Your task to perform on an android device: open app "Google Play services" (install if not already installed) Image 0: 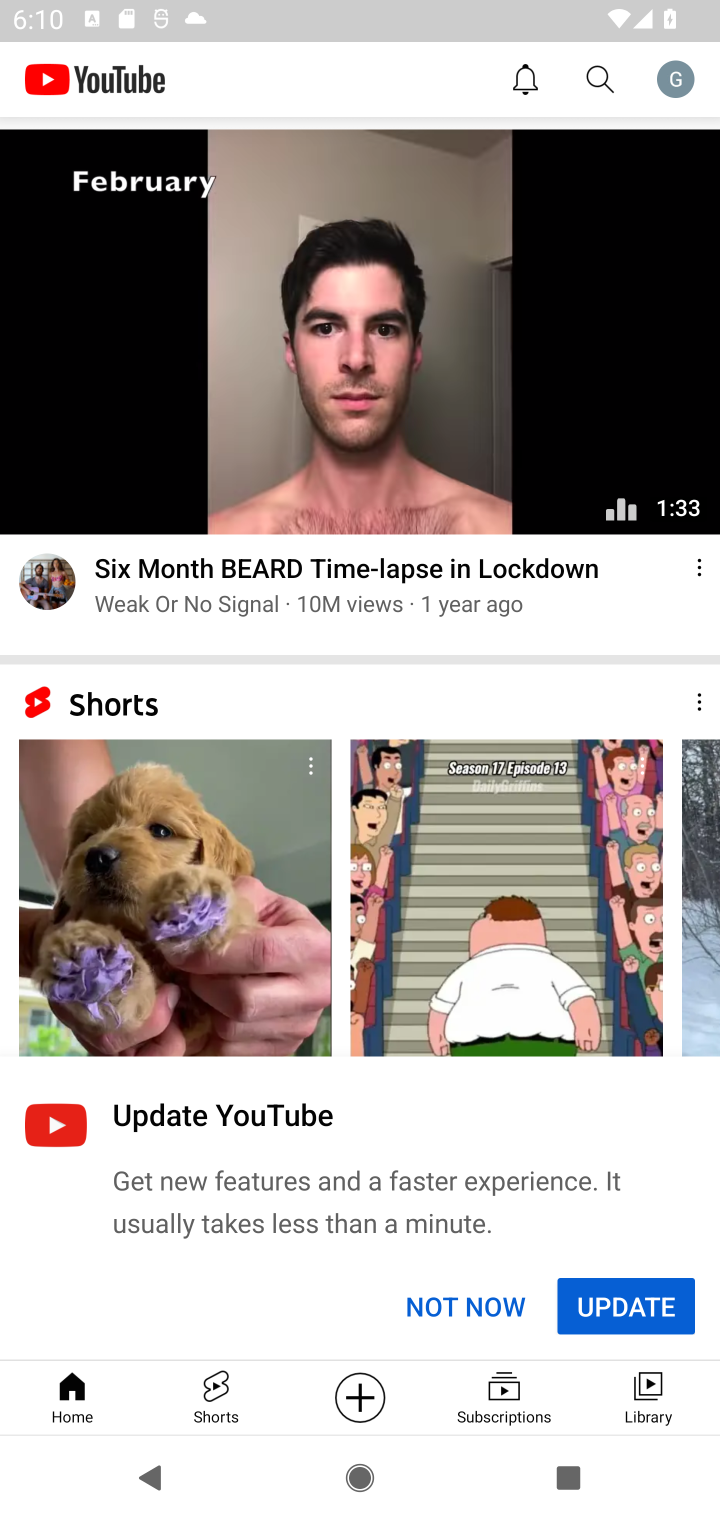
Step 0: press home button
Your task to perform on an android device: open app "Google Play services" (install if not already installed) Image 1: 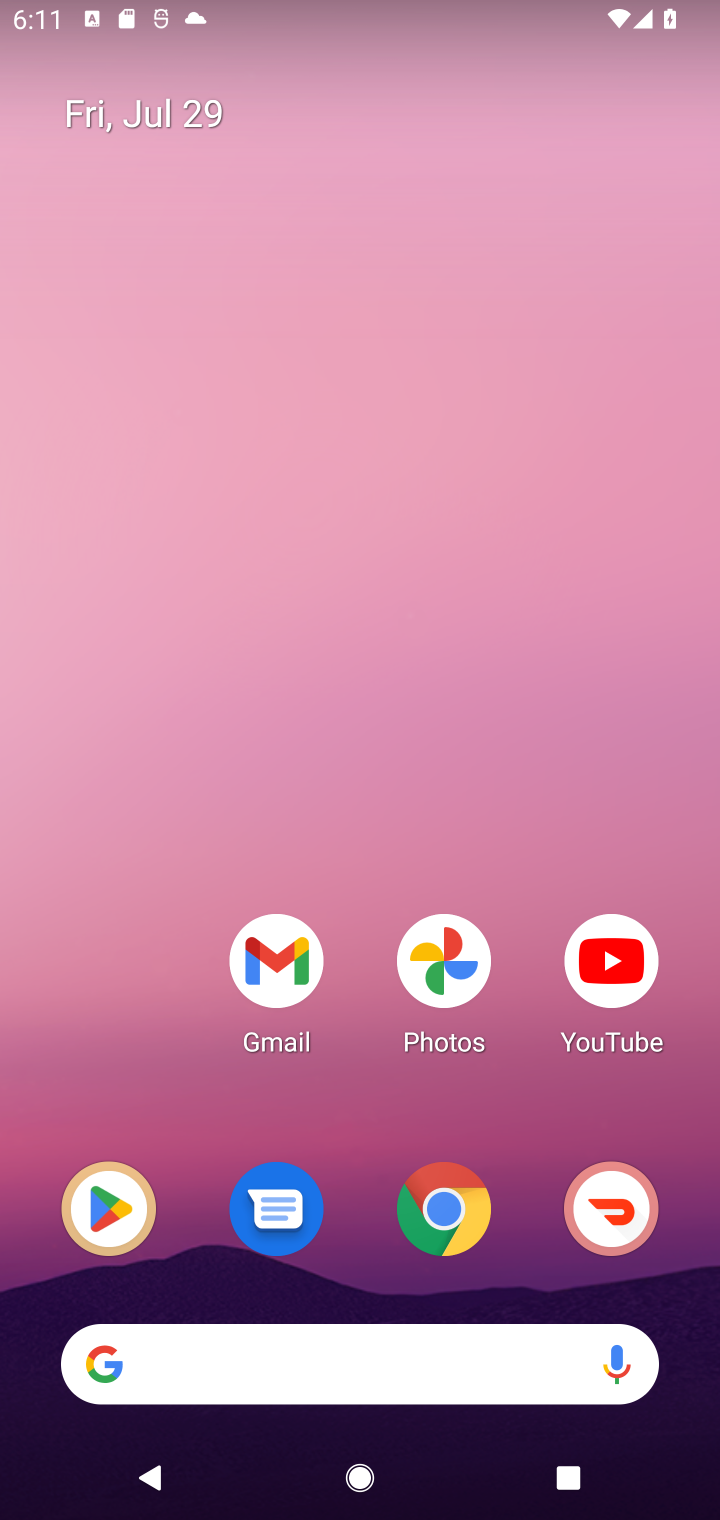
Step 1: click (108, 1221)
Your task to perform on an android device: open app "Google Play services" (install if not already installed) Image 2: 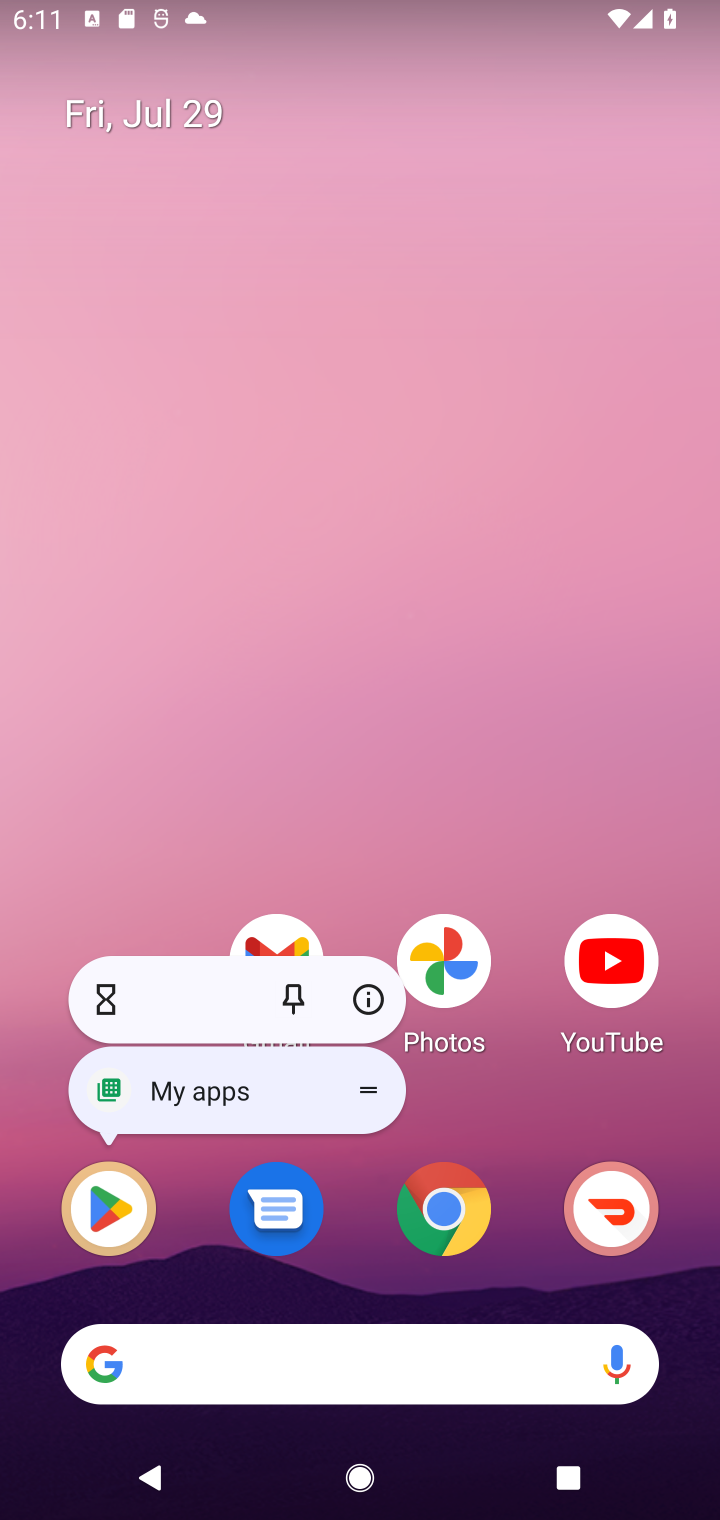
Step 2: click (108, 1221)
Your task to perform on an android device: open app "Google Play services" (install if not already installed) Image 3: 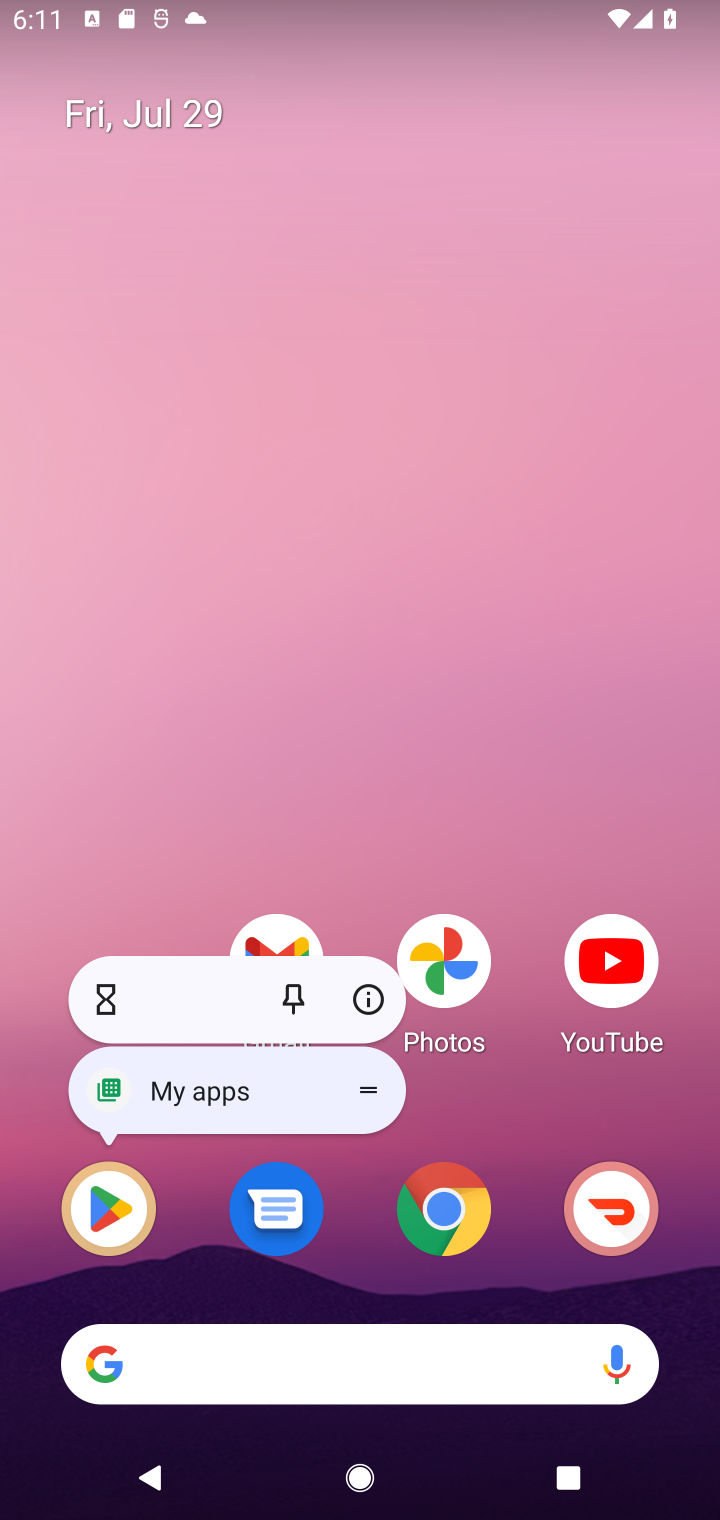
Step 3: click (108, 1221)
Your task to perform on an android device: open app "Google Play services" (install if not already installed) Image 4: 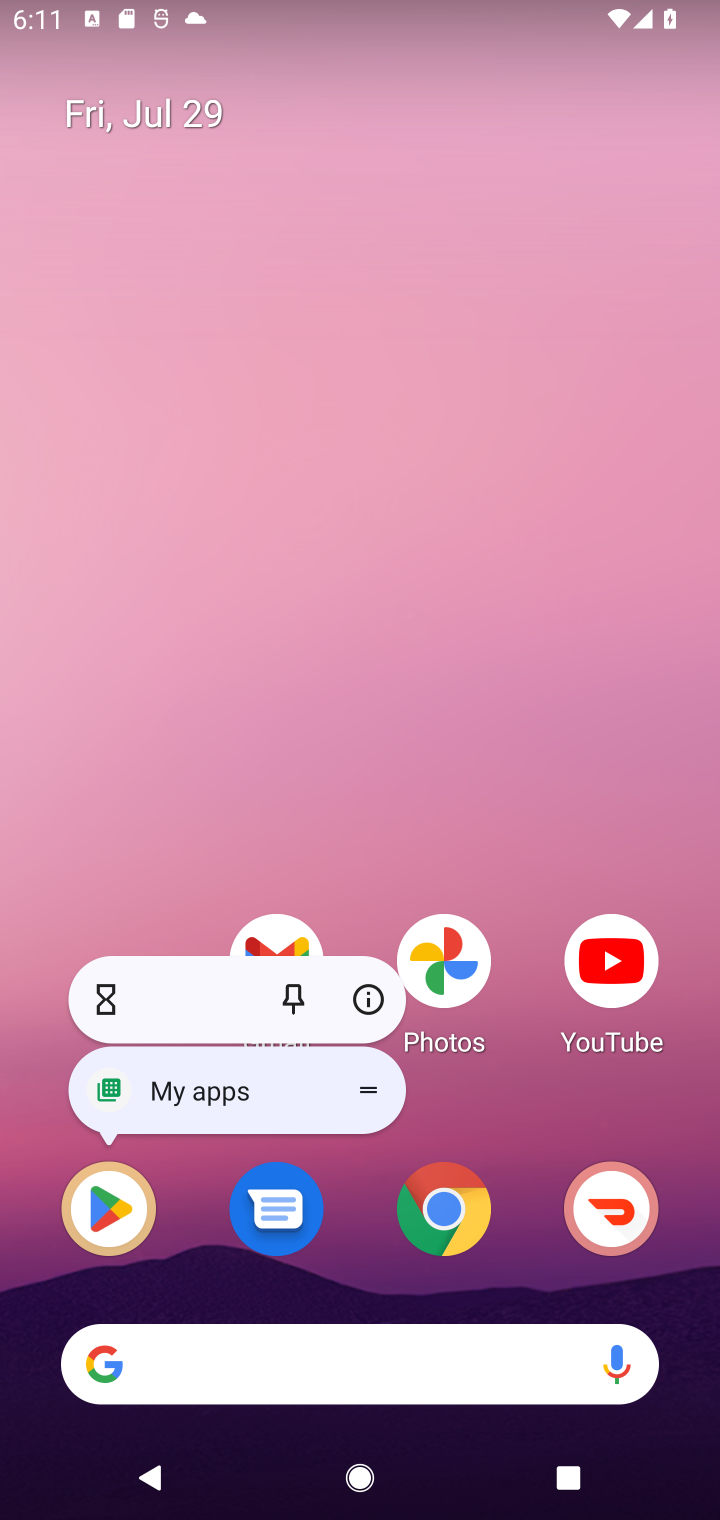
Step 4: click (108, 1221)
Your task to perform on an android device: open app "Google Play services" (install if not already installed) Image 5: 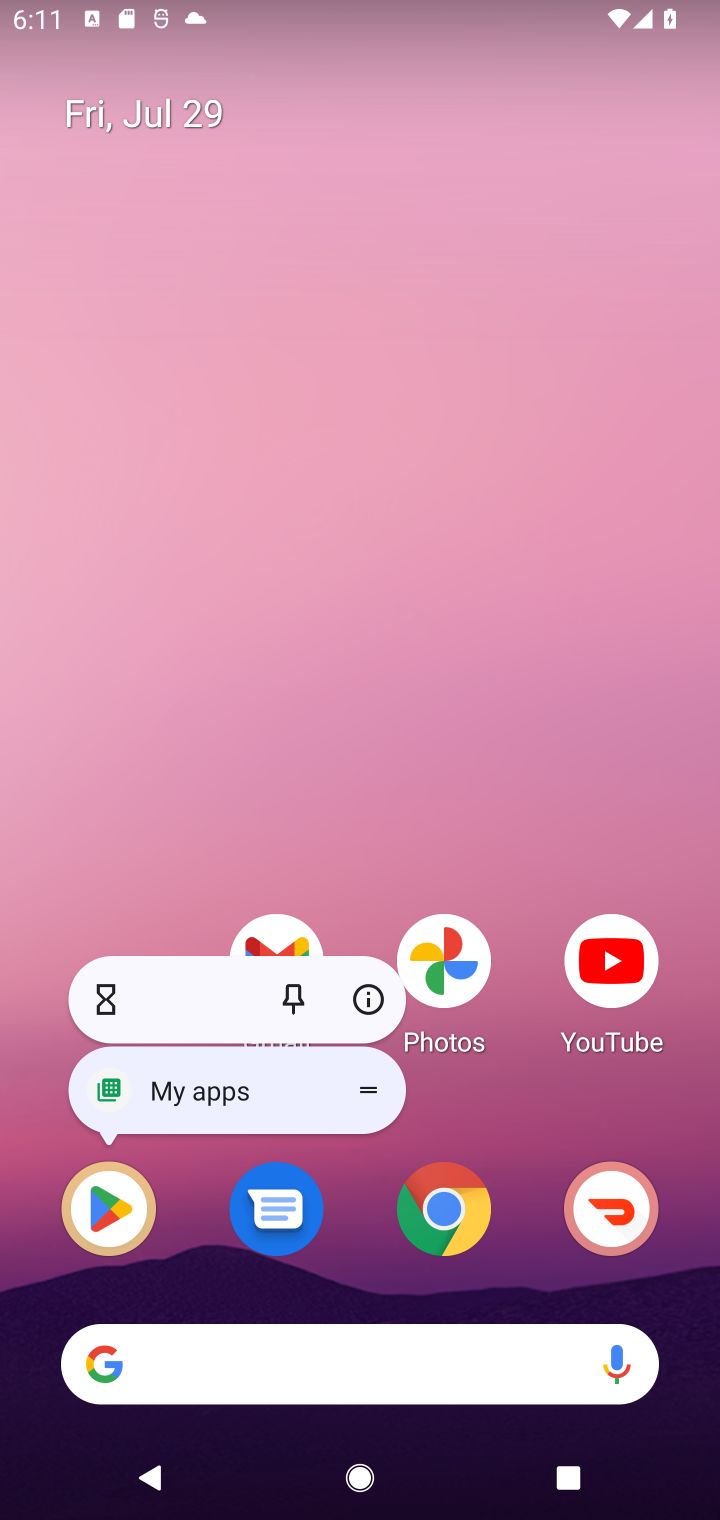
Step 5: click (108, 1221)
Your task to perform on an android device: open app "Google Play services" (install if not already installed) Image 6: 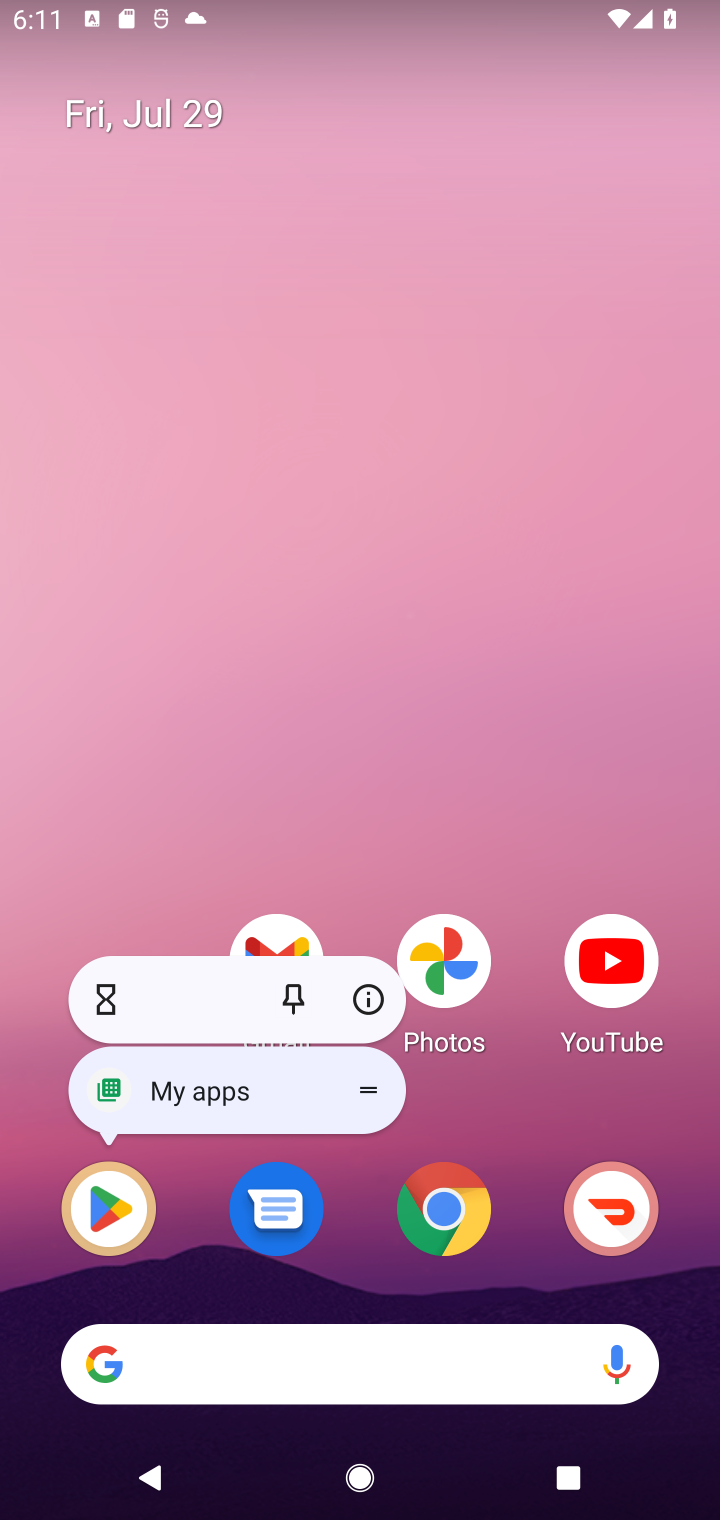
Step 6: click (101, 1198)
Your task to perform on an android device: open app "Google Play services" (install if not already installed) Image 7: 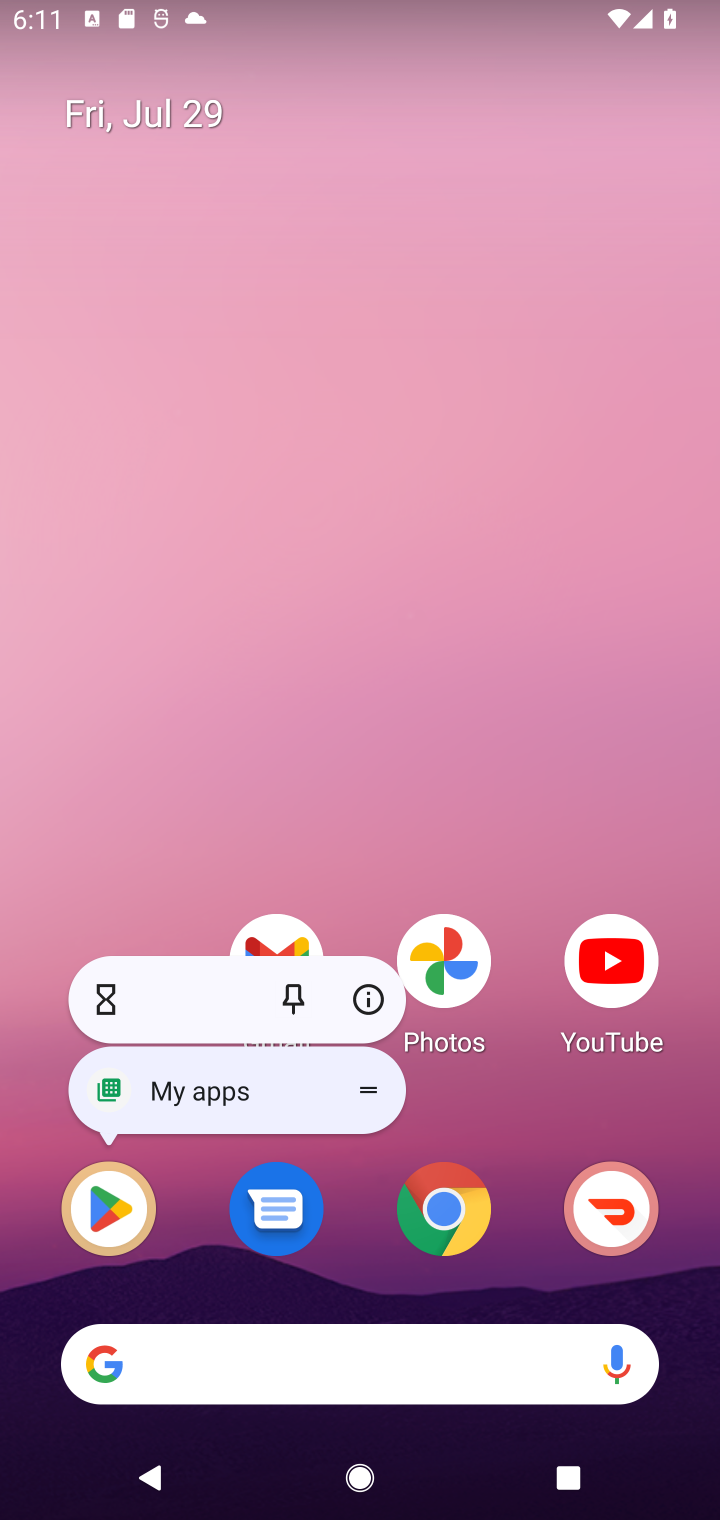
Step 7: click (101, 1198)
Your task to perform on an android device: open app "Google Play services" (install if not already installed) Image 8: 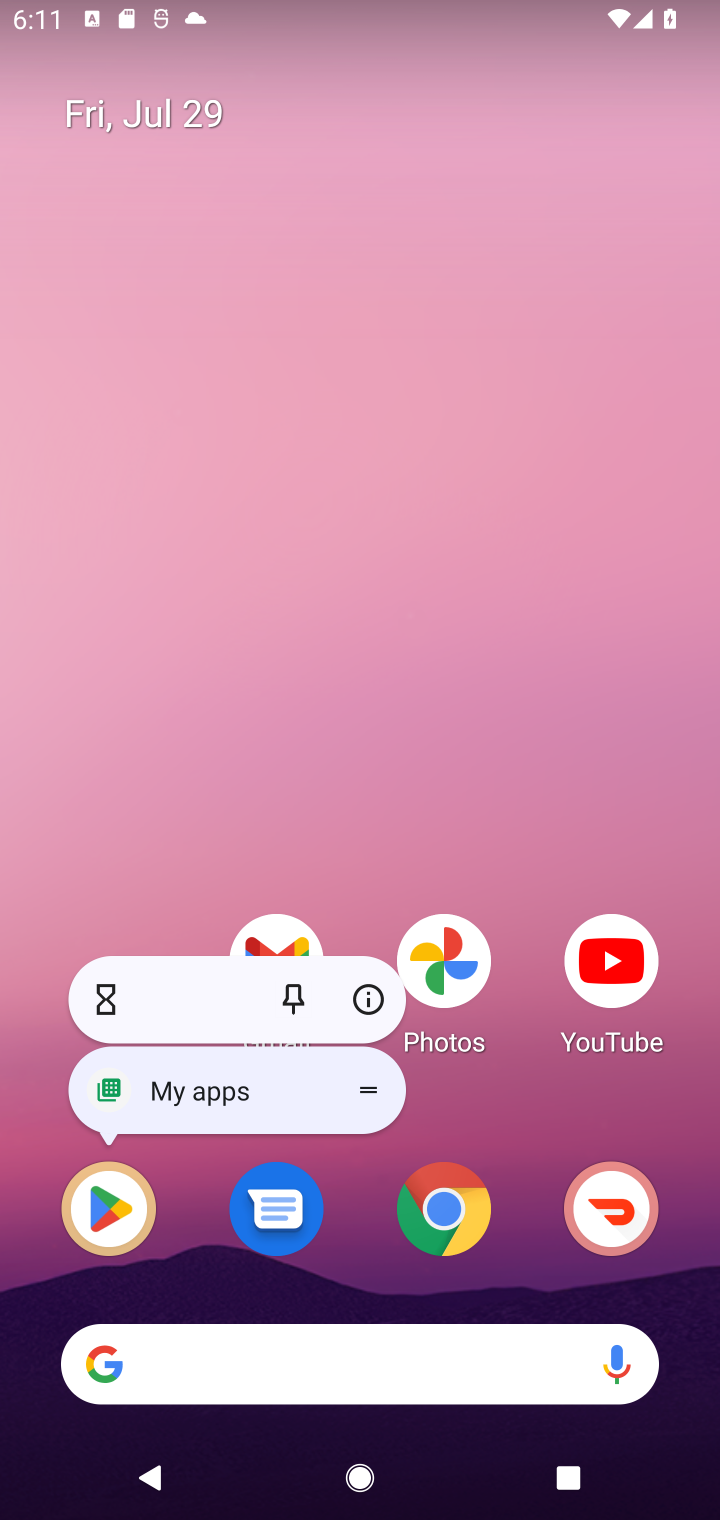
Step 8: click (101, 1198)
Your task to perform on an android device: open app "Google Play services" (install if not already installed) Image 9: 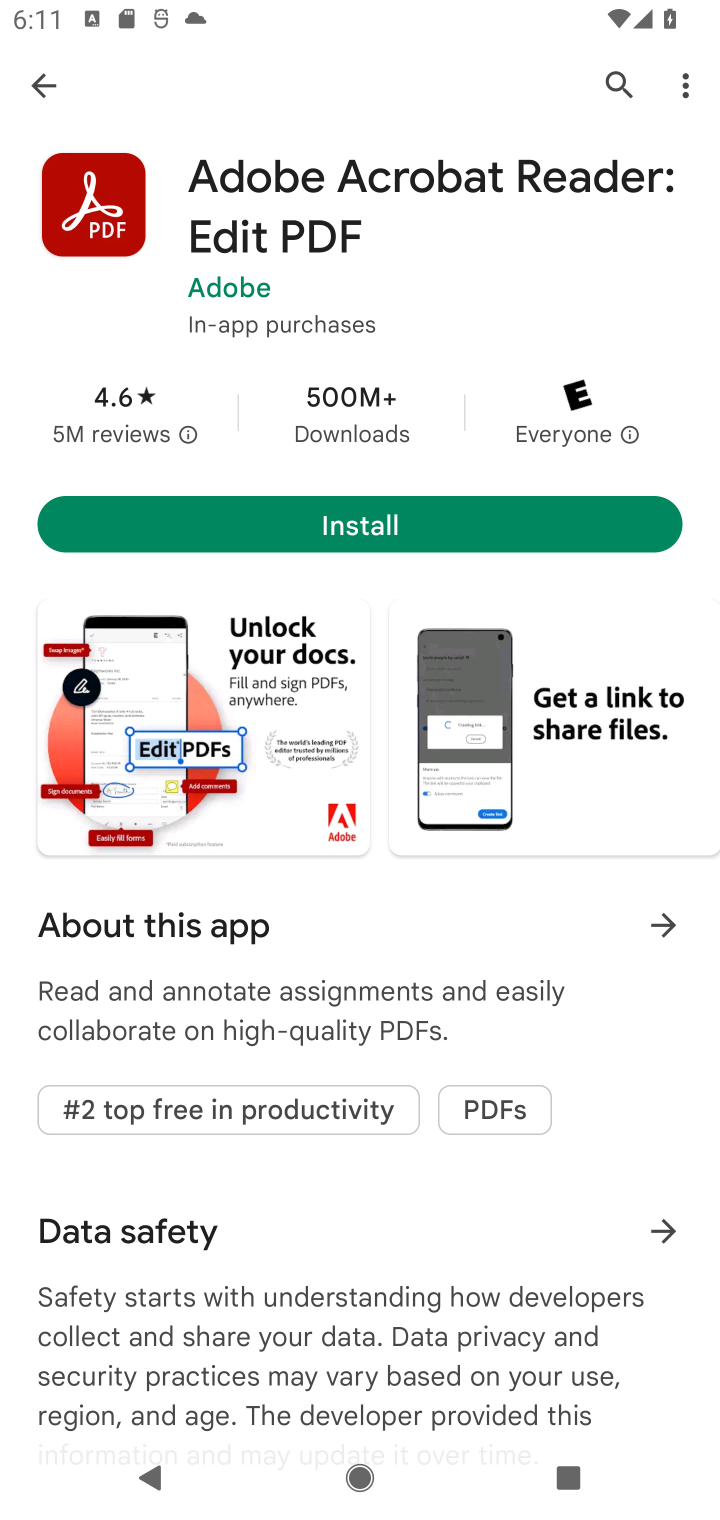
Step 9: click (614, 88)
Your task to perform on an android device: open app "Google Play services" (install if not already installed) Image 10: 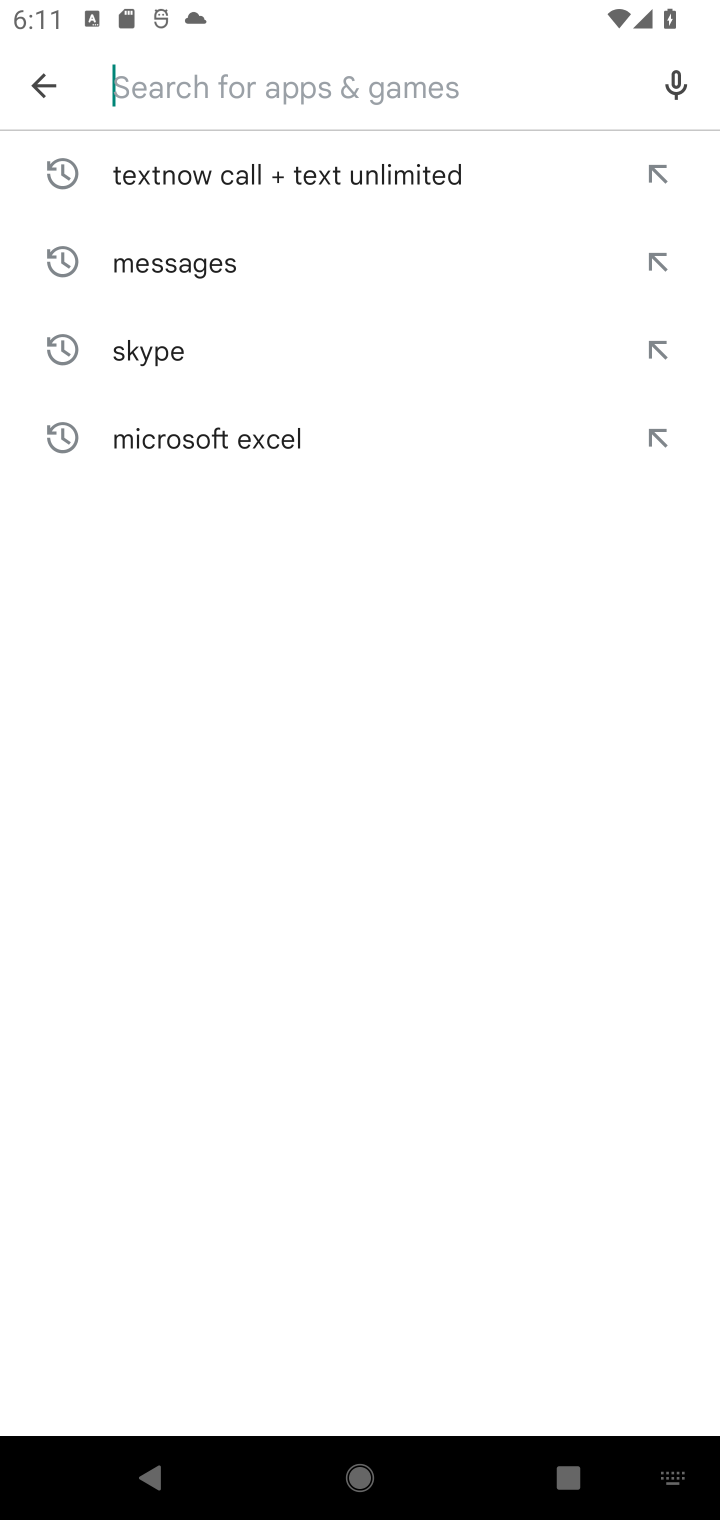
Step 10: type "Google Play services"
Your task to perform on an android device: open app "Google Play services" (install if not already installed) Image 11: 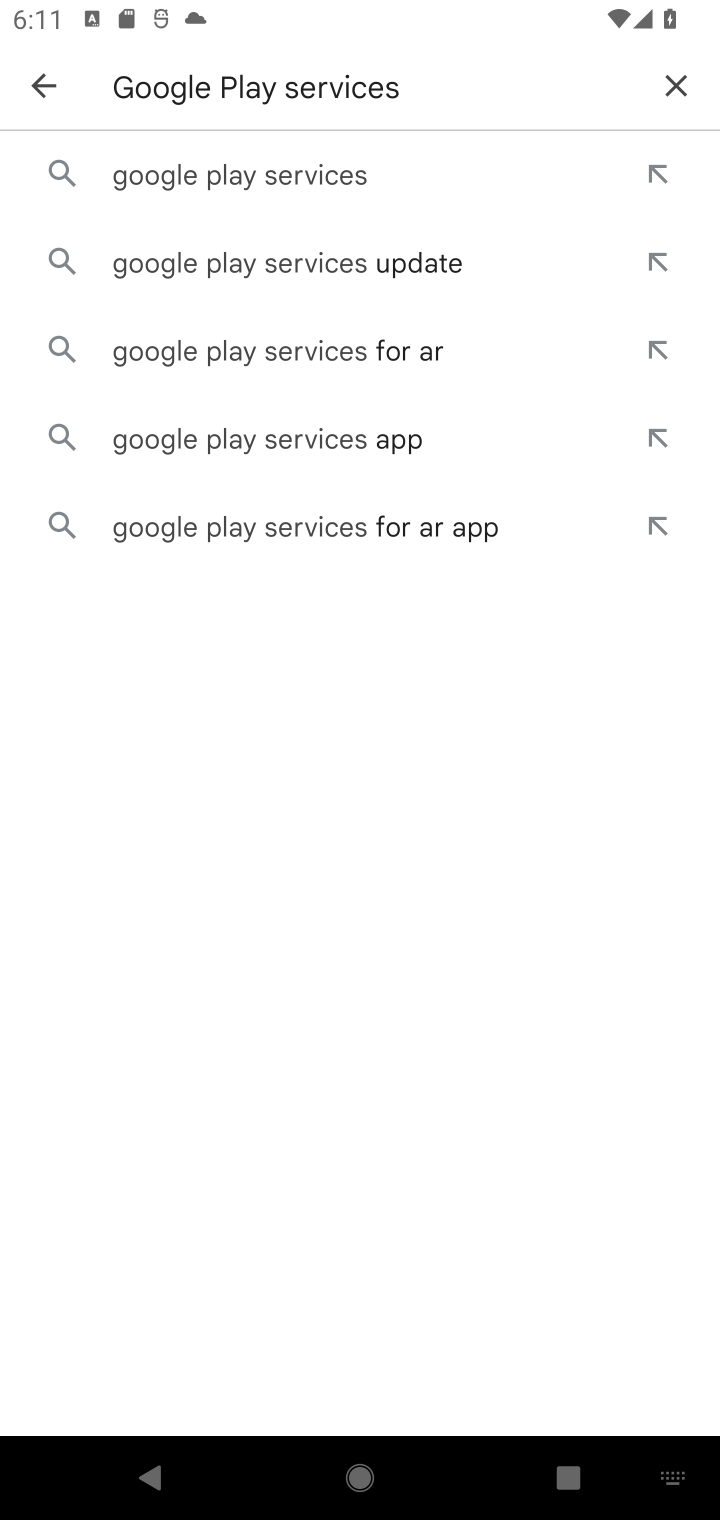
Step 11: click (224, 181)
Your task to perform on an android device: open app "Google Play services" (install if not already installed) Image 12: 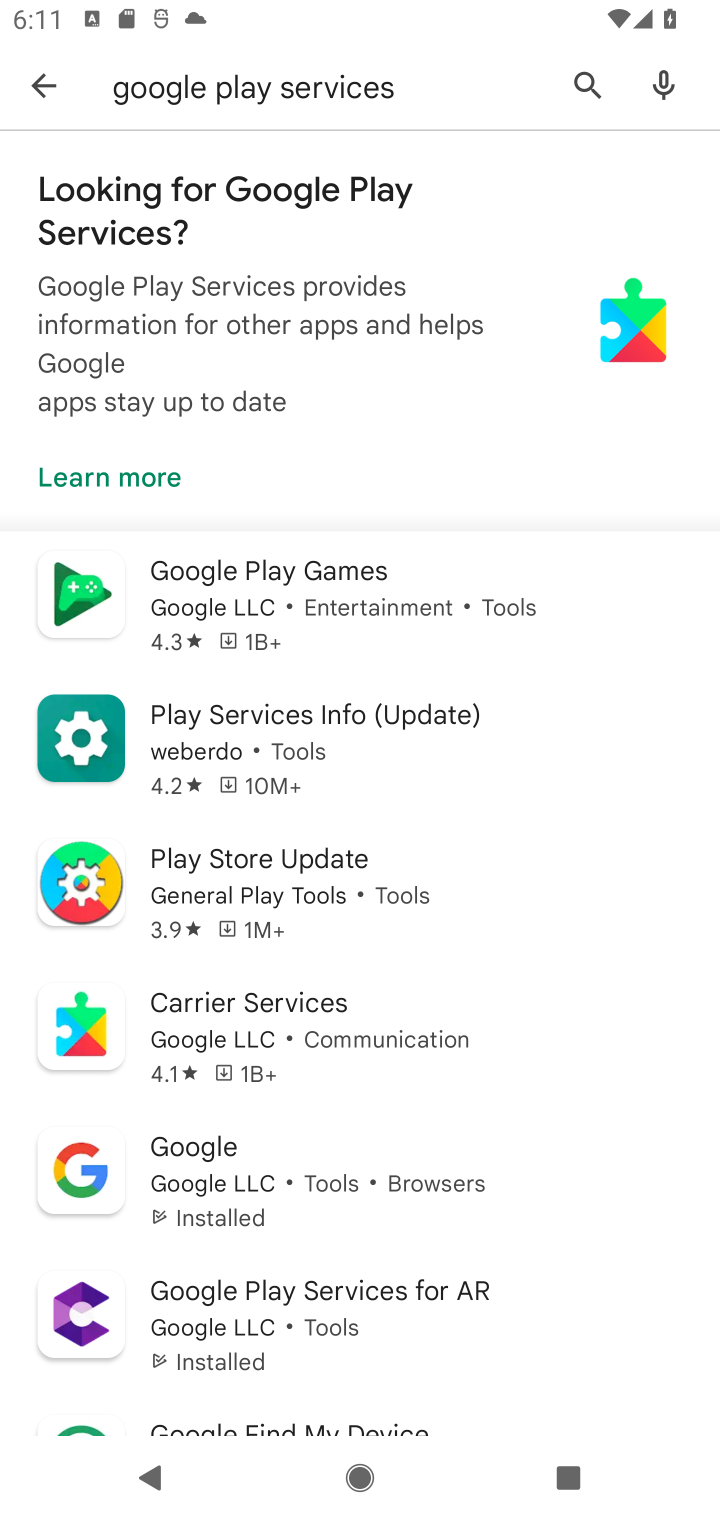
Step 12: click (202, 1298)
Your task to perform on an android device: open app "Google Play services" (install if not already installed) Image 13: 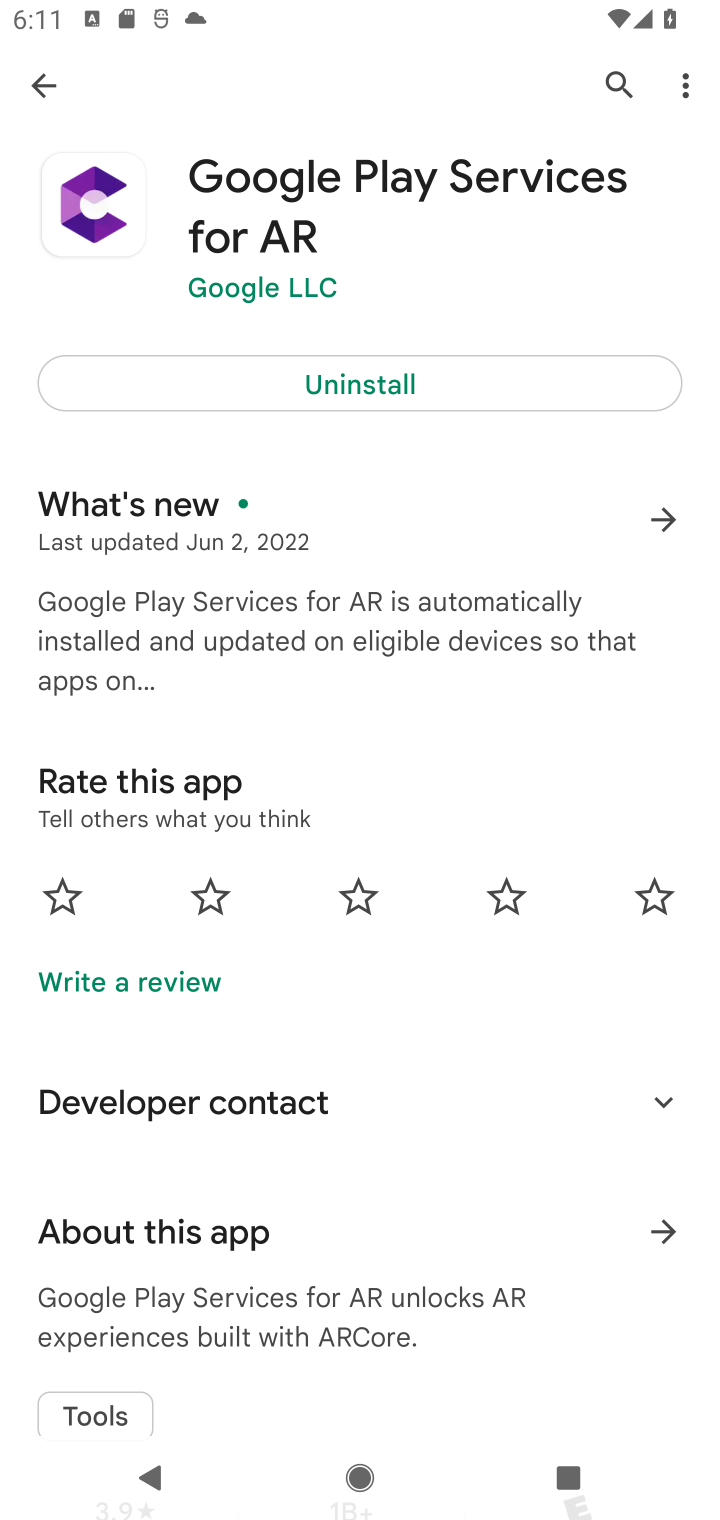
Step 13: click (100, 200)
Your task to perform on an android device: open app "Google Play services" (install if not already installed) Image 14: 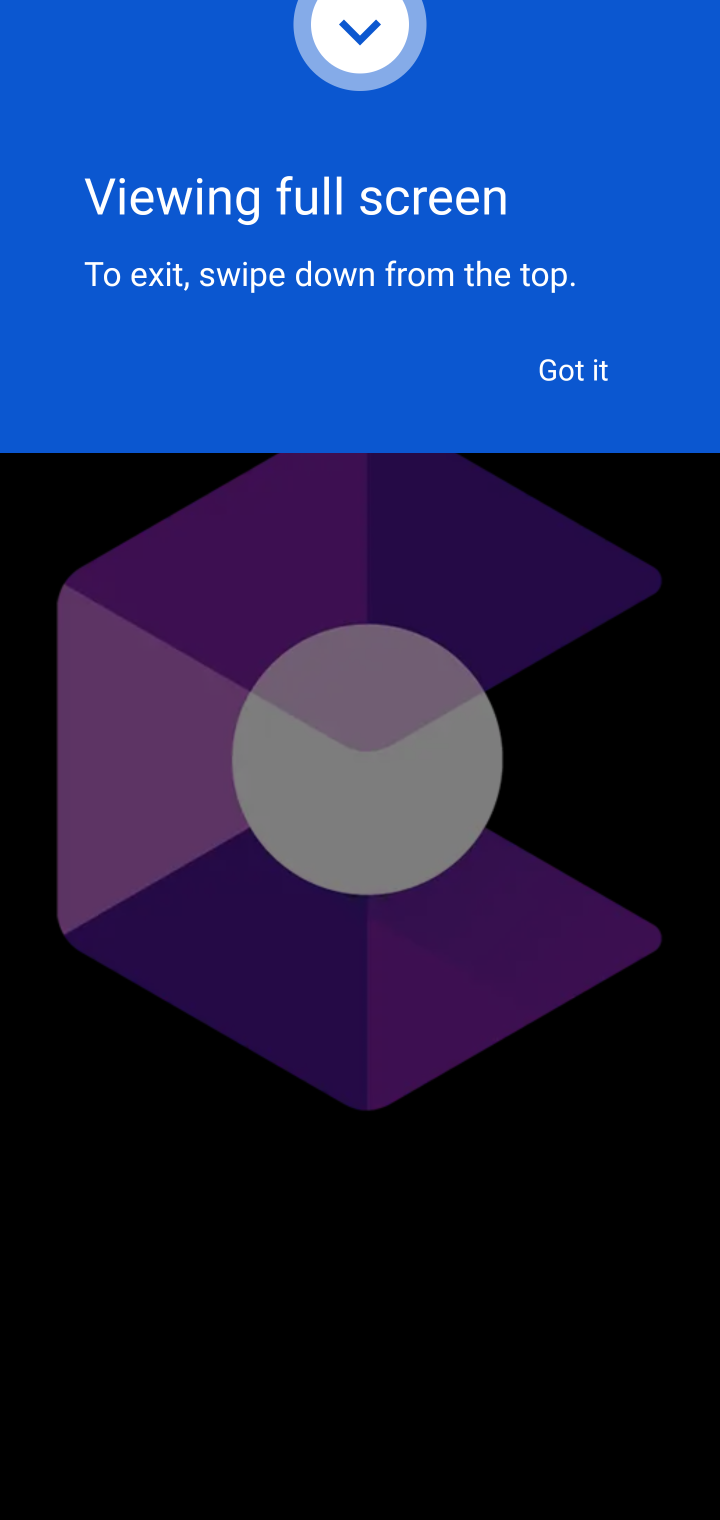
Step 14: click (553, 374)
Your task to perform on an android device: open app "Google Play services" (install if not already installed) Image 15: 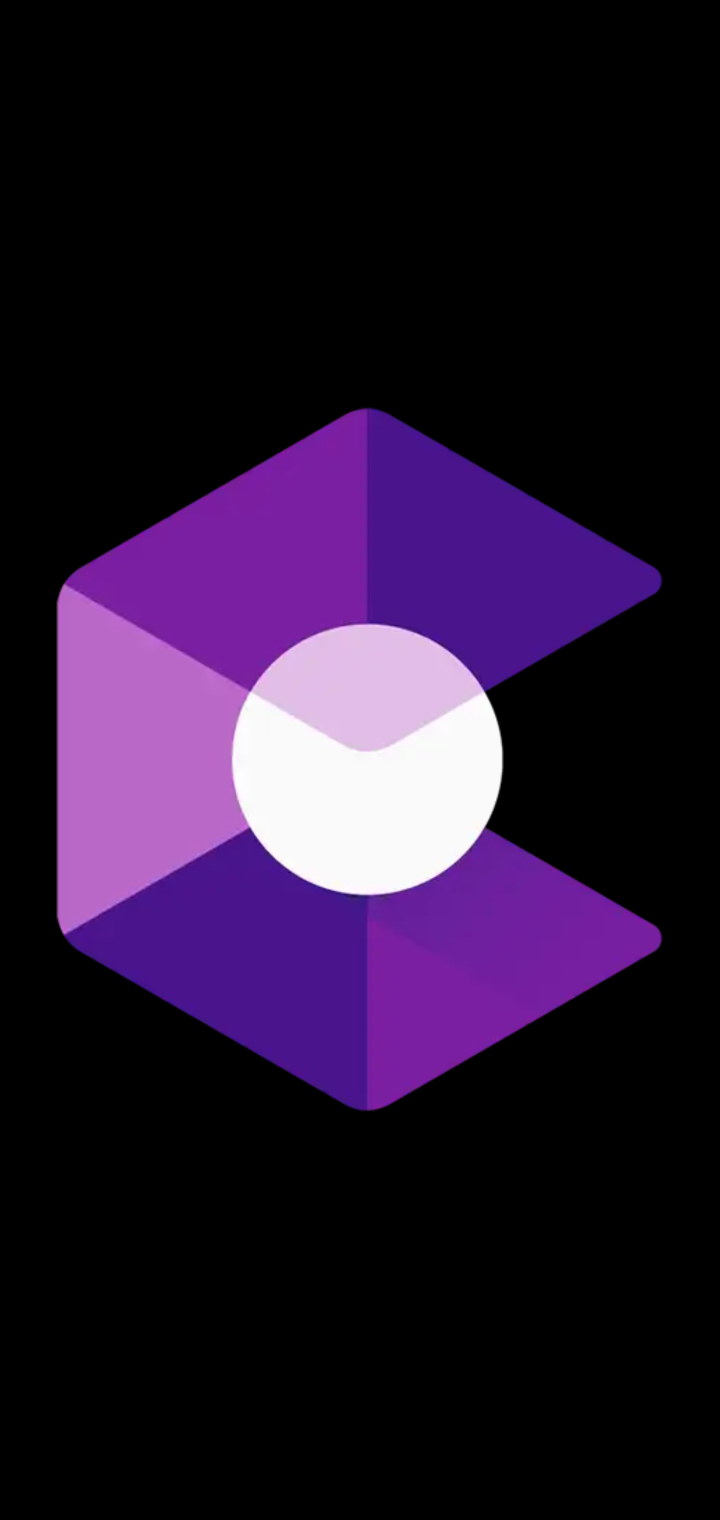
Step 15: click (41, 128)
Your task to perform on an android device: open app "Google Play services" (install if not already installed) Image 16: 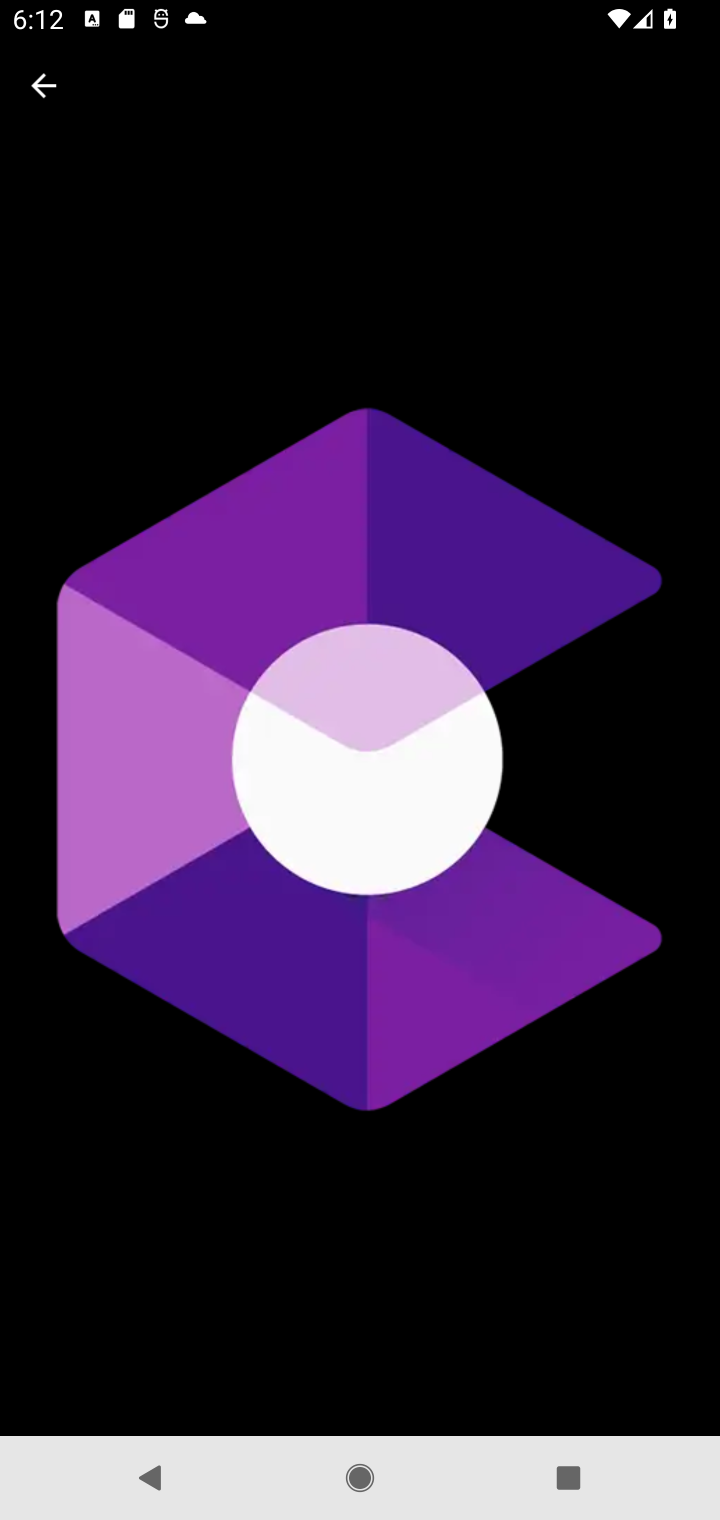
Step 16: click (41, 96)
Your task to perform on an android device: open app "Google Play services" (install if not already installed) Image 17: 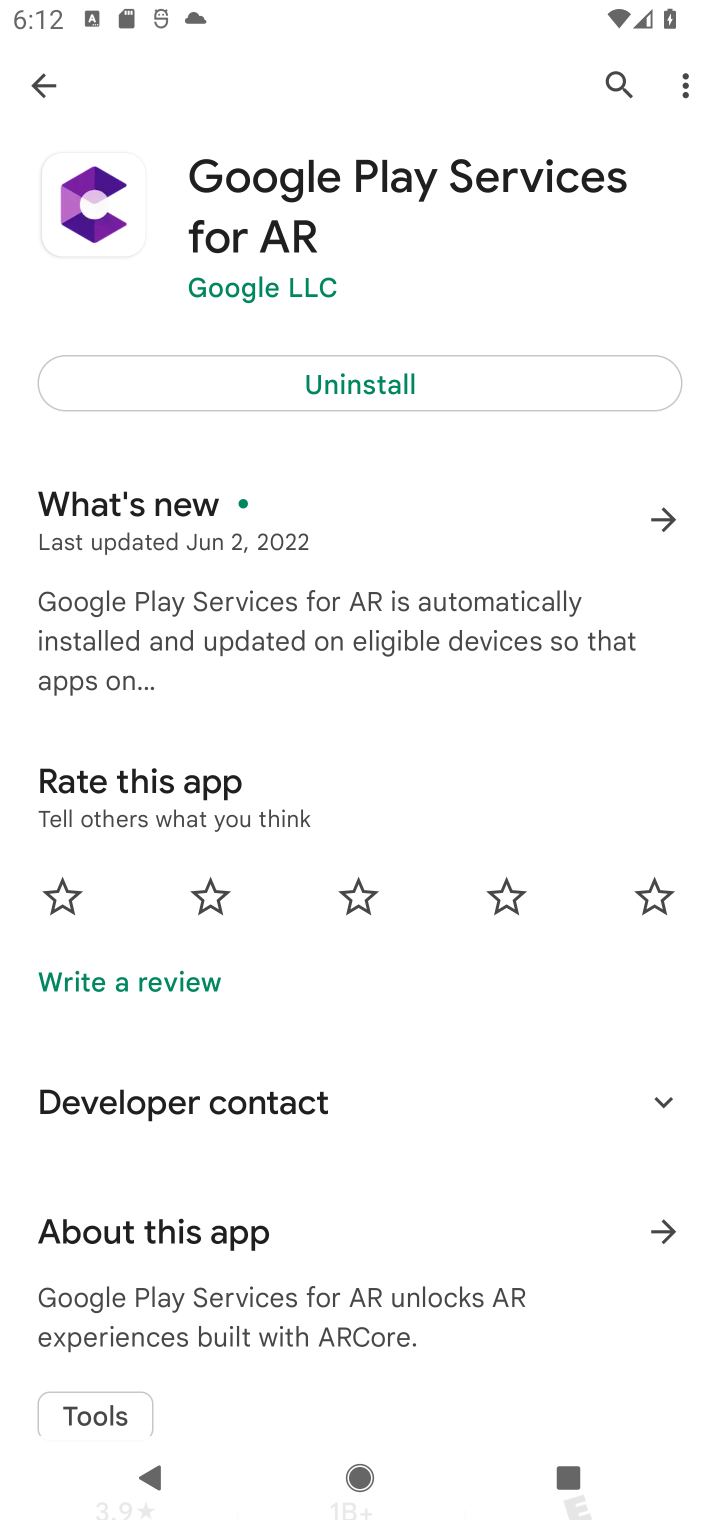
Step 17: click (273, 190)
Your task to perform on an android device: open app "Google Play services" (install if not already installed) Image 18: 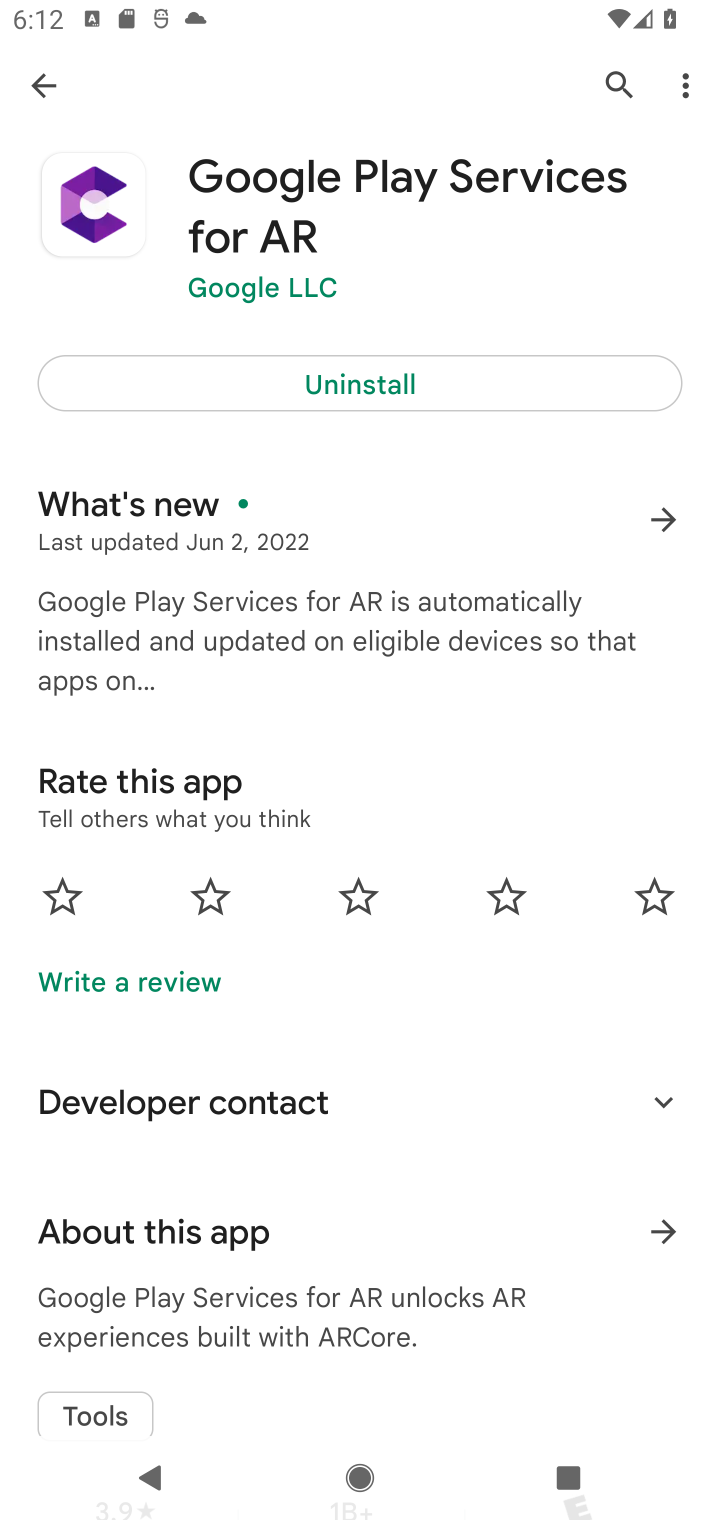
Step 18: click (248, 235)
Your task to perform on an android device: open app "Google Play services" (install if not already installed) Image 19: 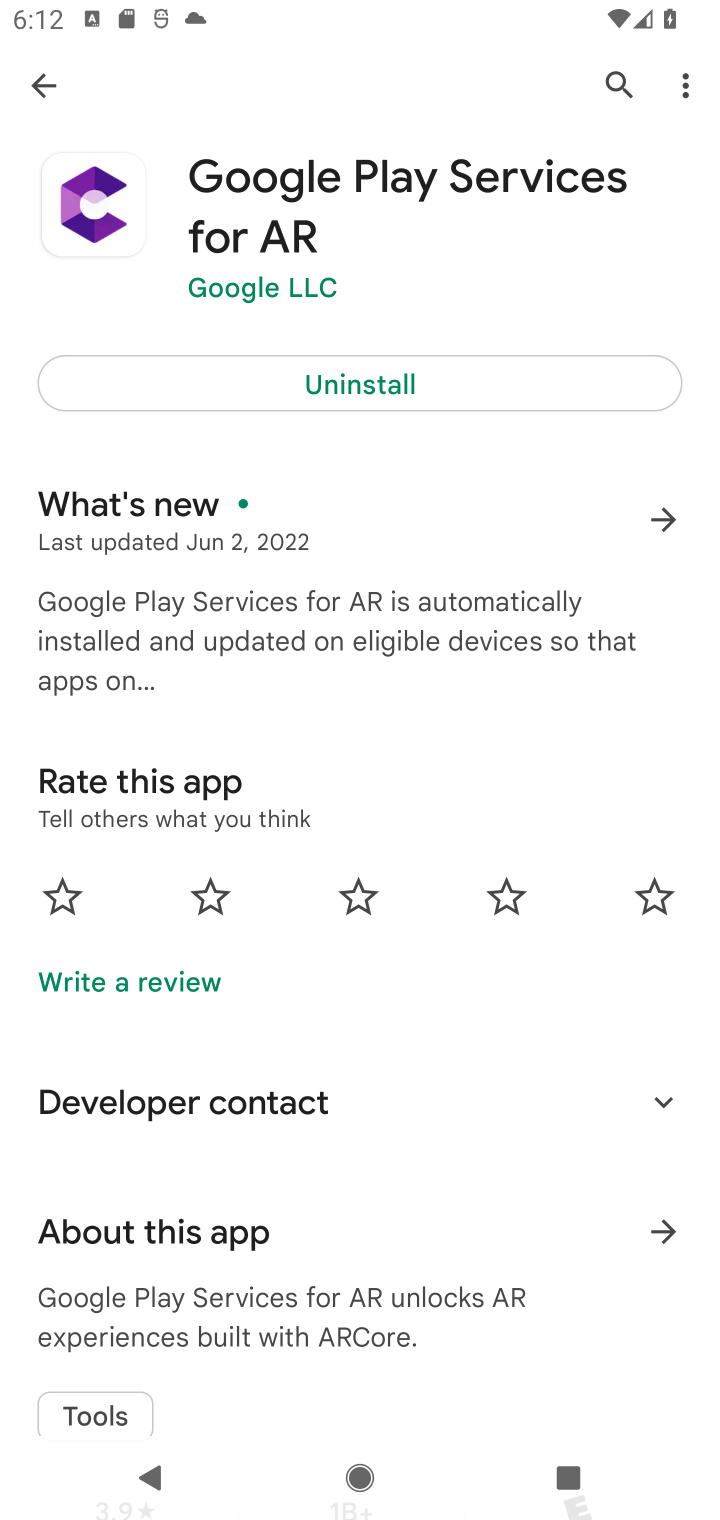
Step 19: press home button
Your task to perform on an android device: open app "Google Play services" (install if not already installed) Image 20: 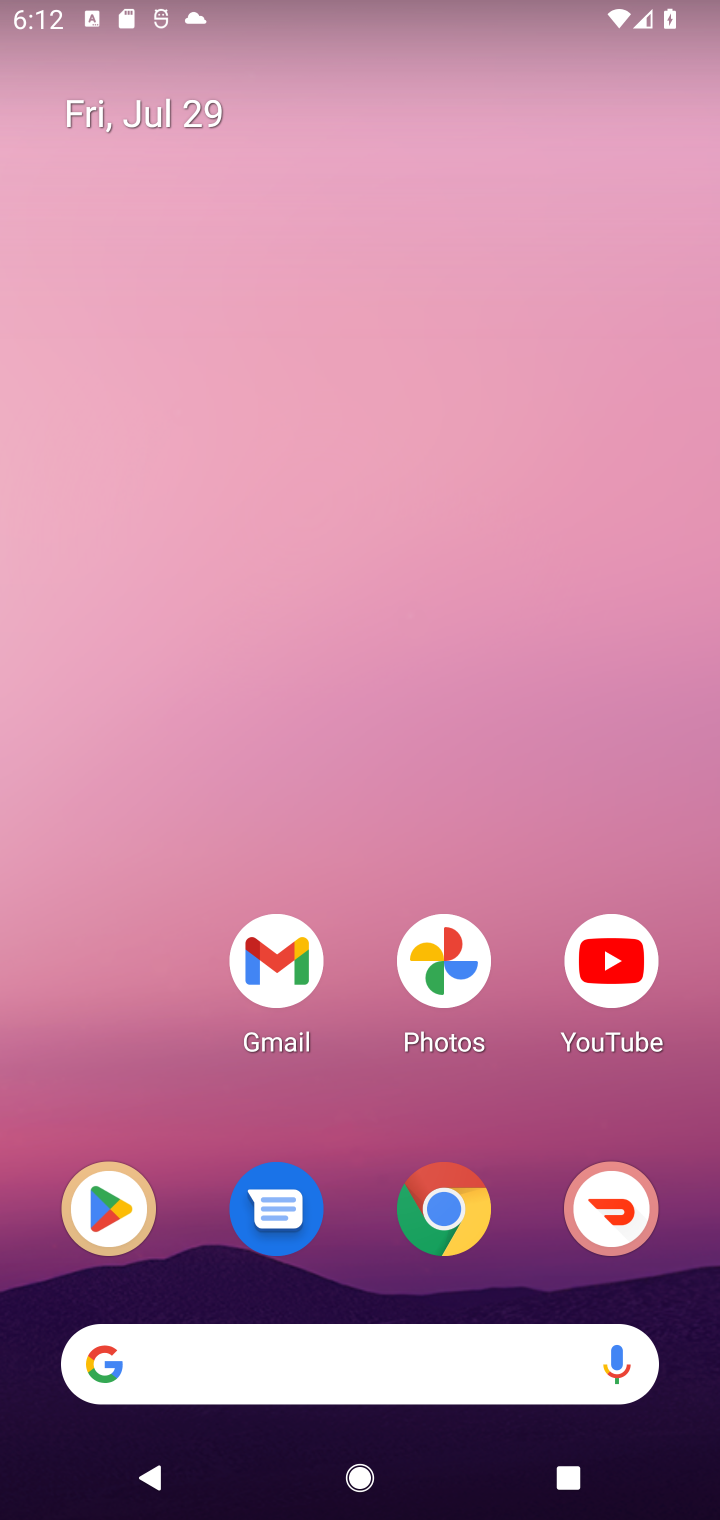
Step 20: drag from (485, 736) to (0, 767)
Your task to perform on an android device: open app "Google Play services" (install if not already installed) Image 21: 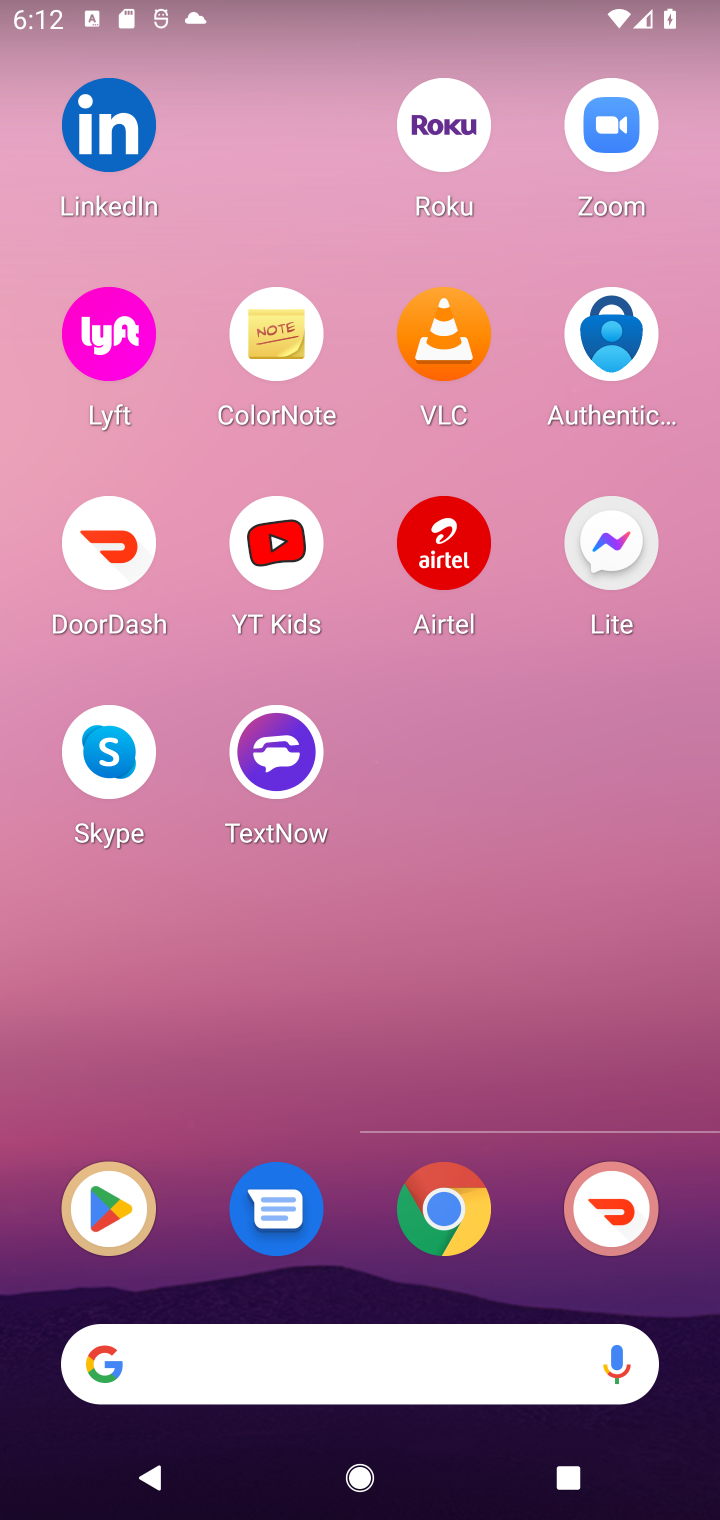
Step 21: click (630, 842)
Your task to perform on an android device: open app "Google Play services" (install if not already installed) Image 22: 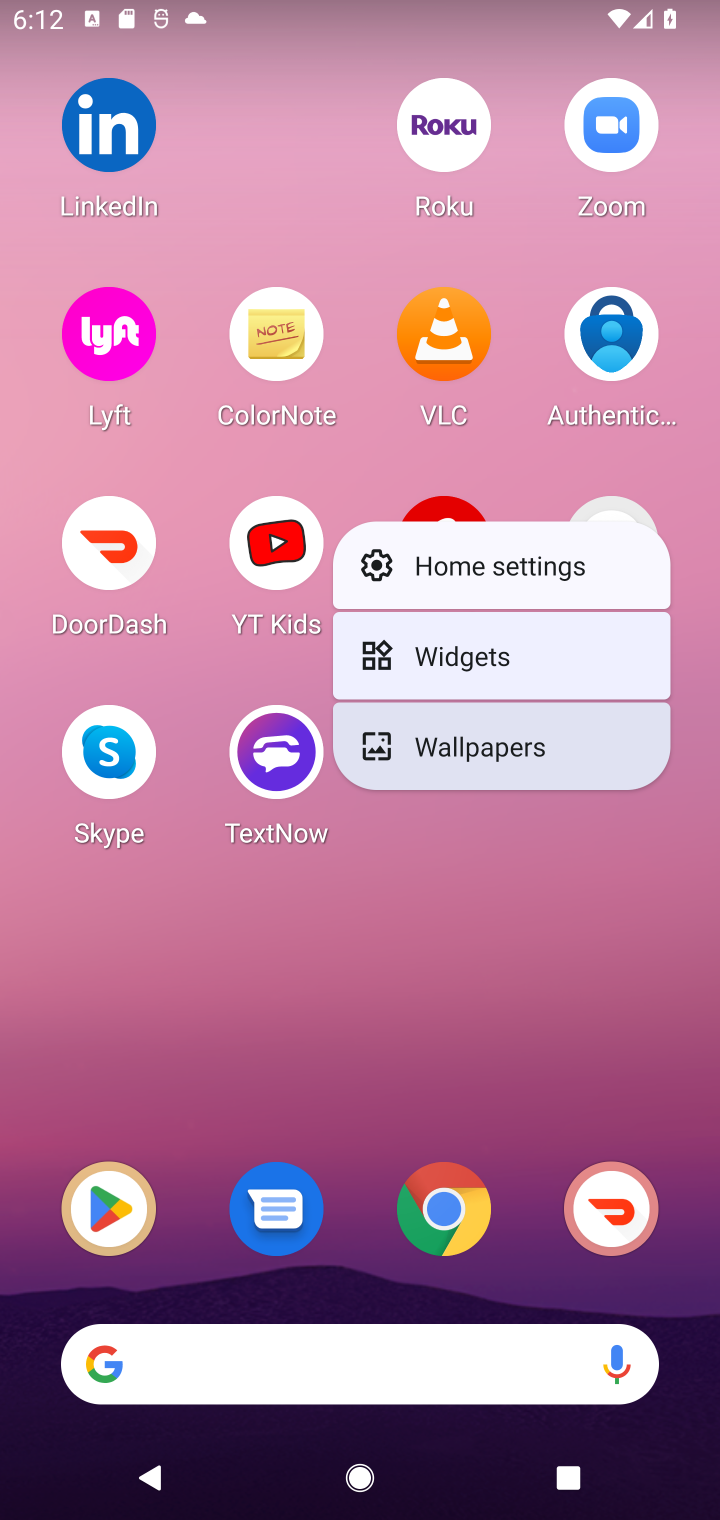
Step 22: drag from (458, 965) to (394, 118)
Your task to perform on an android device: open app "Google Play services" (install if not already installed) Image 23: 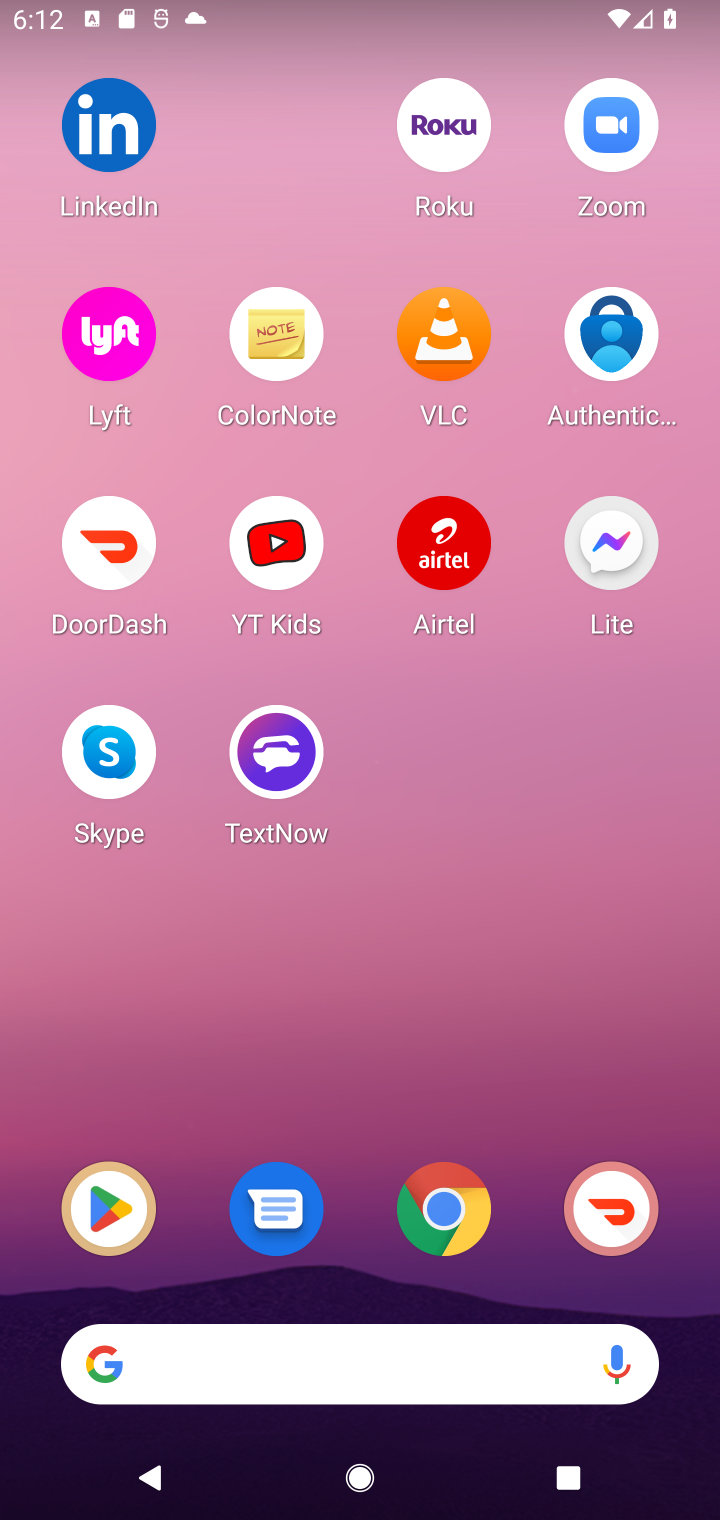
Step 23: drag from (448, 1048) to (410, 133)
Your task to perform on an android device: open app "Google Play services" (install if not already installed) Image 24: 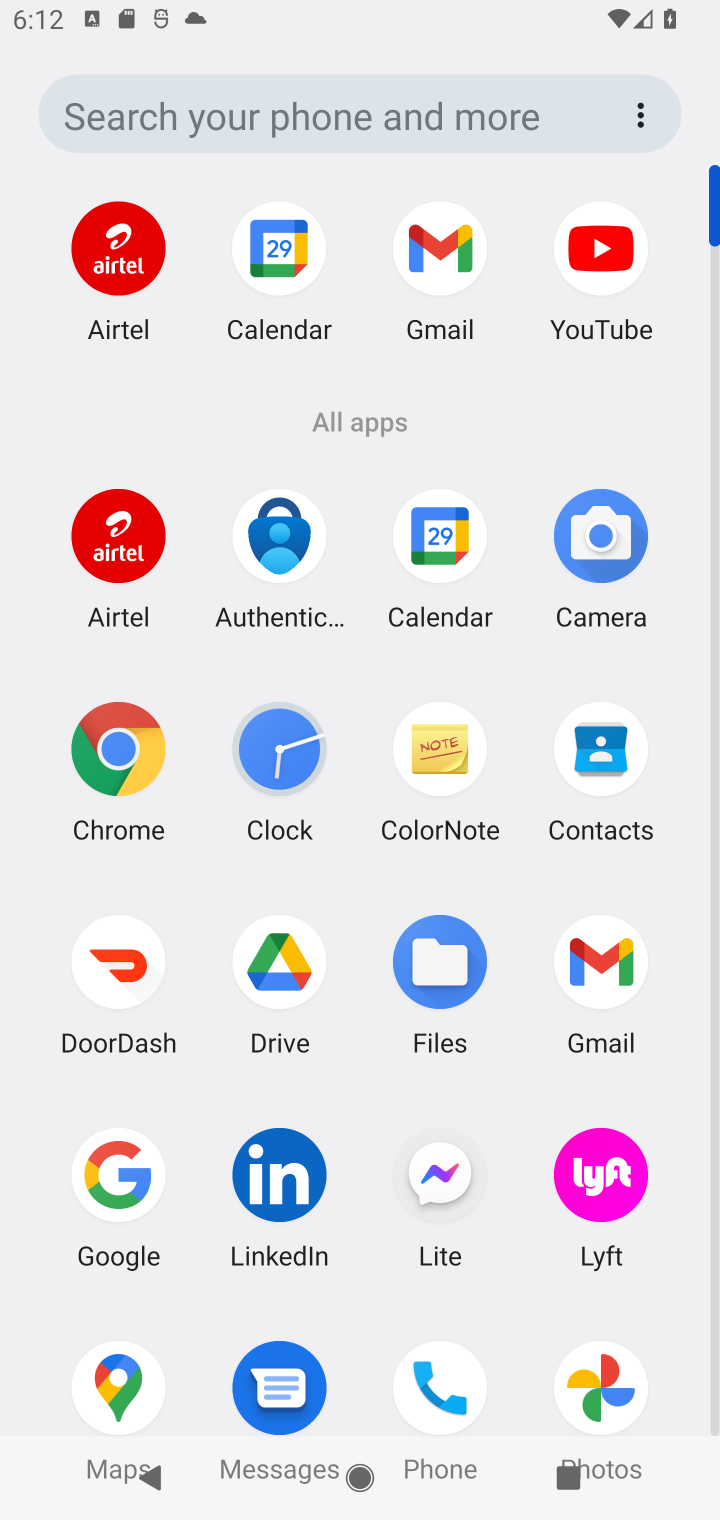
Step 24: drag from (700, 1011) to (708, 881)
Your task to perform on an android device: open app "Google Play services" (install if not already installed) Image 25: 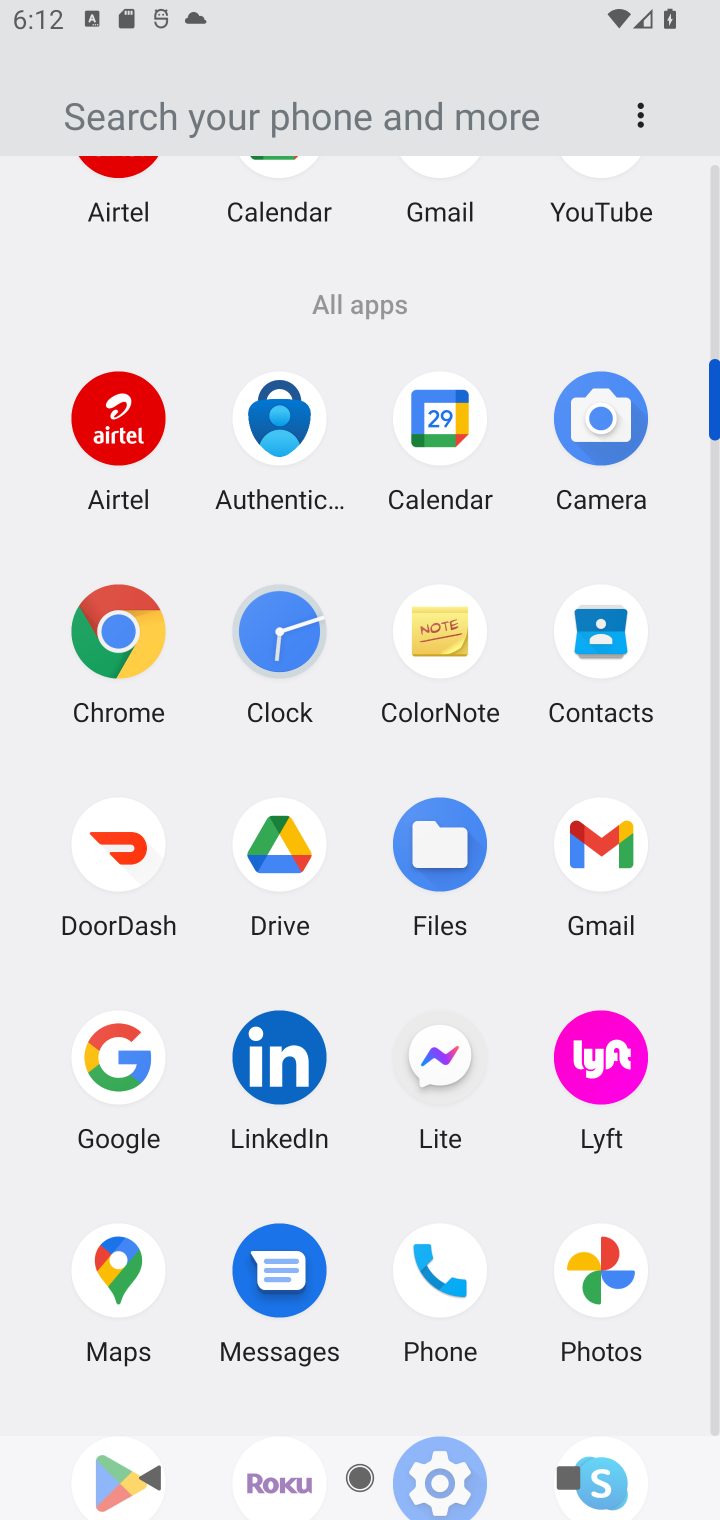
Step 25: drag from (706, 1138) to (718, 976)
Your task to perform on an android device: open app "Google Play services" (install if not already installed) Image 26: 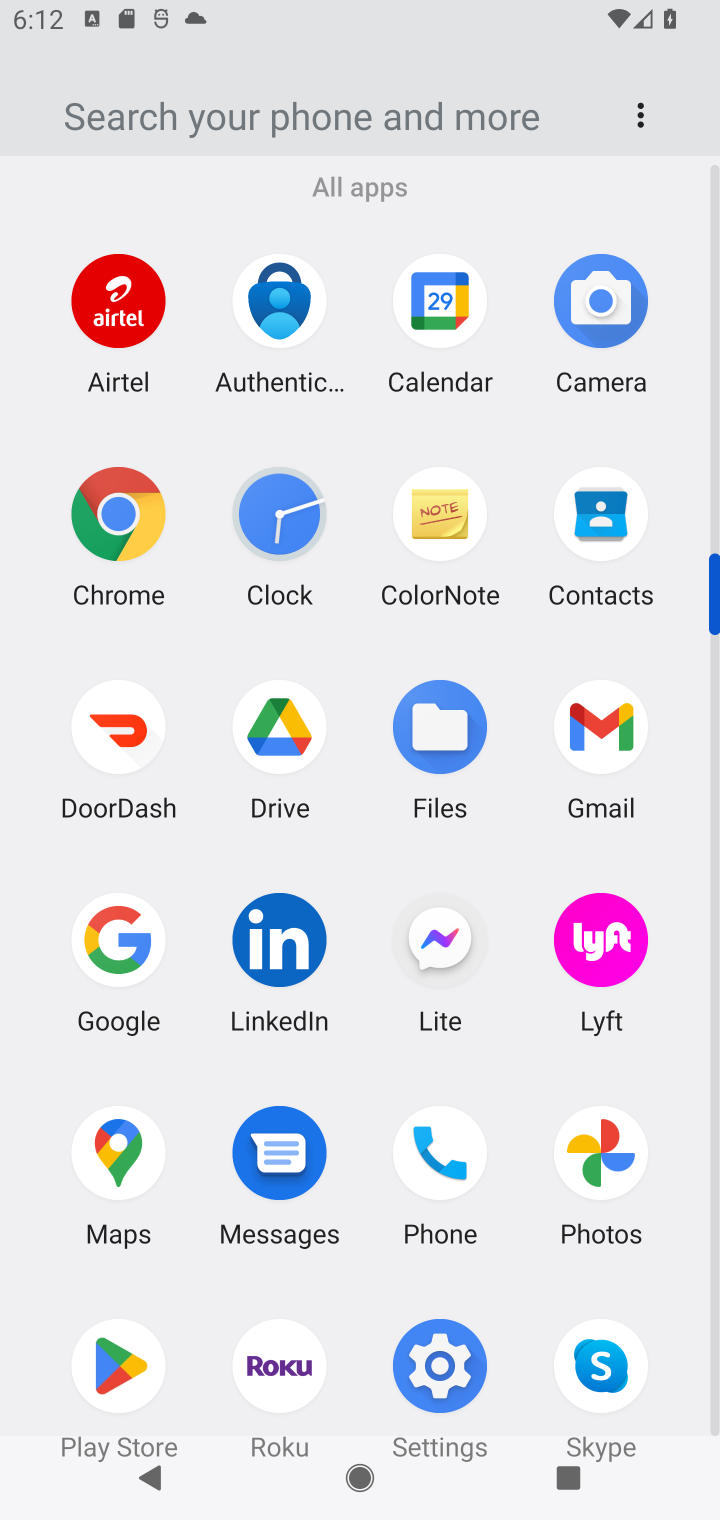
Step 26: drag from (714, 950) to (718, 869)
Your task to perform on an android device: open app "Google Play services" (install if not already installed) Image 27: 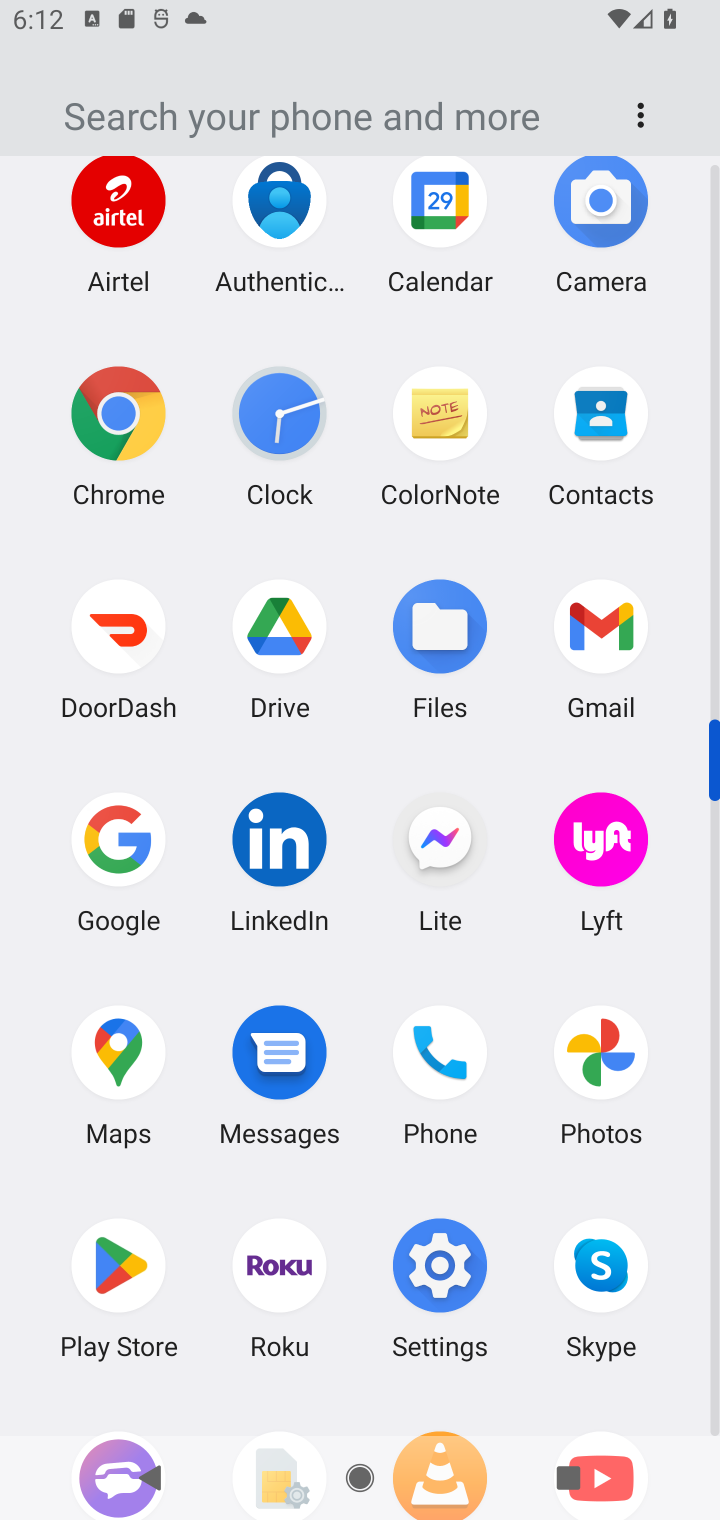
Step 27: drag from (704, 1017) to (714, 811)
Your task to perform on an android device: open app "Google Play services" (install if not already installed) Image 28: 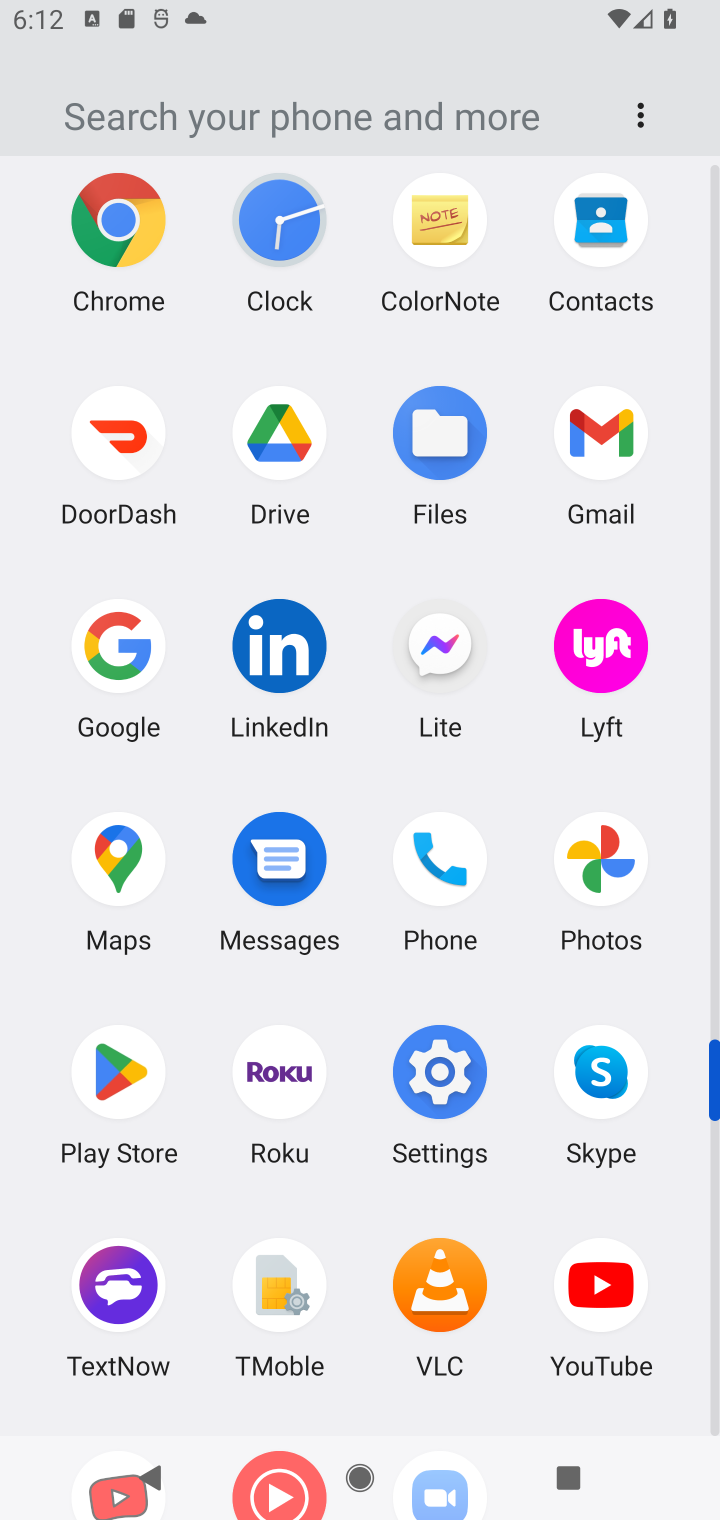
Step 28: drag from (710, 1069) to (719, 907)
Your task to perform on an android device: open app "Google Play services" (install if not already installed) Image 29: 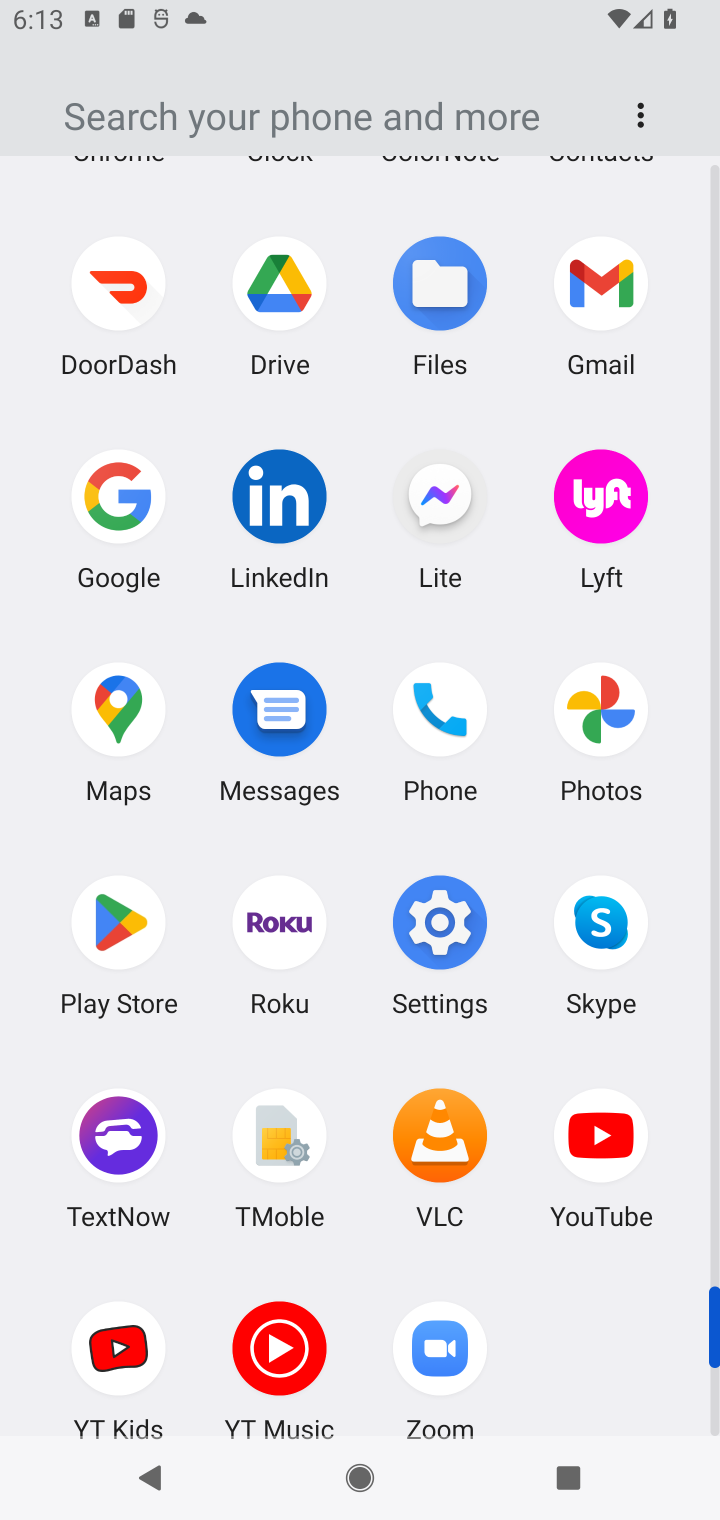
Step 29: drag from (702, 1124) to (715, 838)
Your task to perform on an android device: open app "Google Play services" (install if not already installed) Image 30: 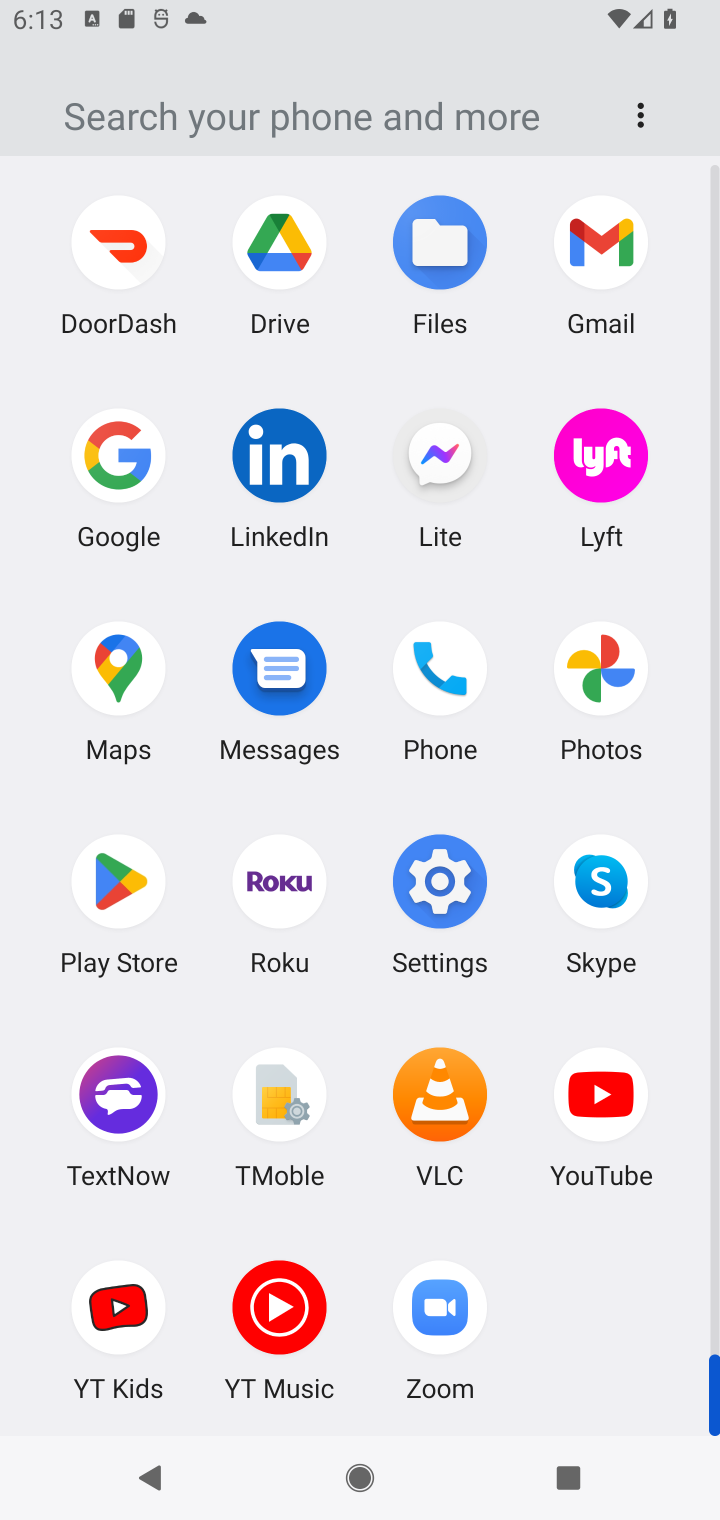
Step 30: drag from (715, 924) to (708, 680)
Your task to perform on an android device: open app "Google Play services" (install if not already installed) Image 31: 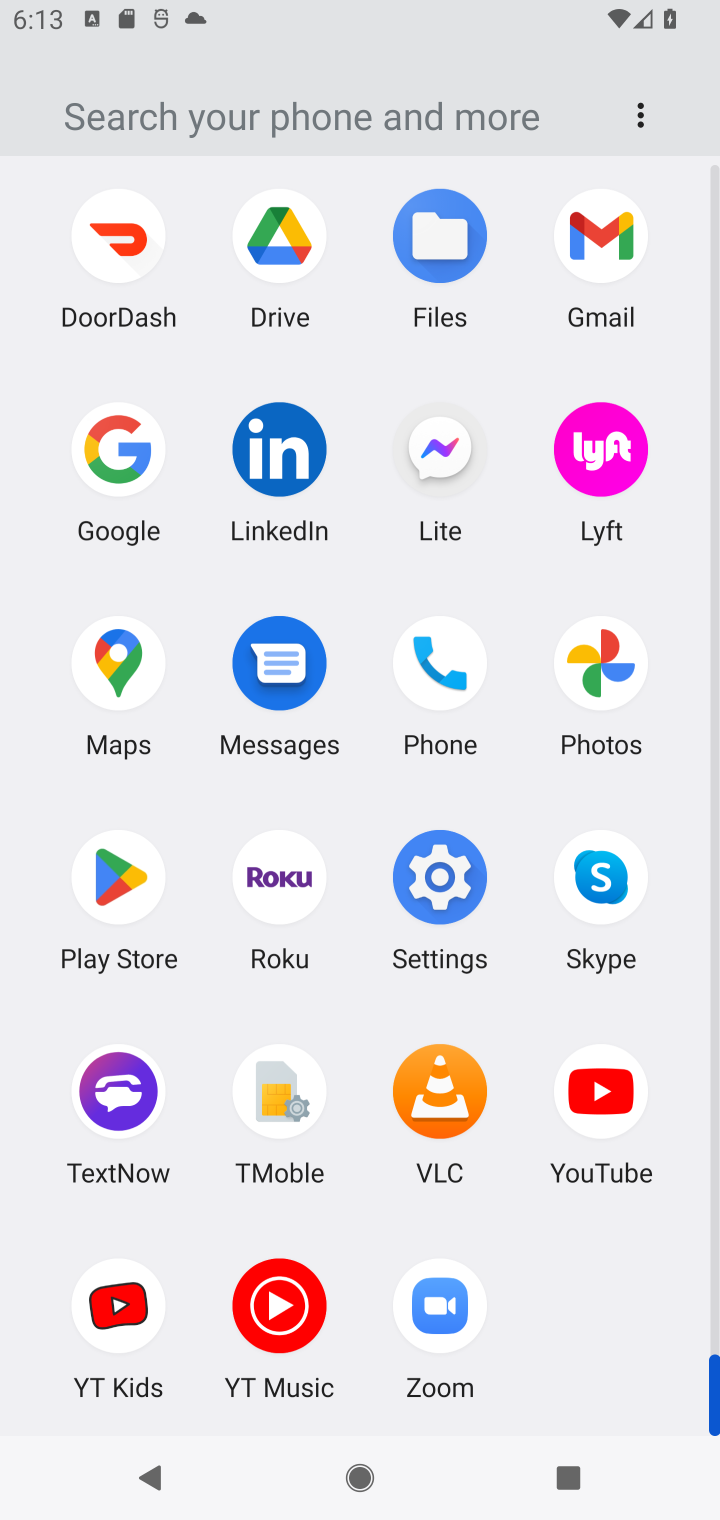
Step 31: click (700, 587)
Your task to perform on an android device: open app "Google Play services" (install if not already installed) Image 32: 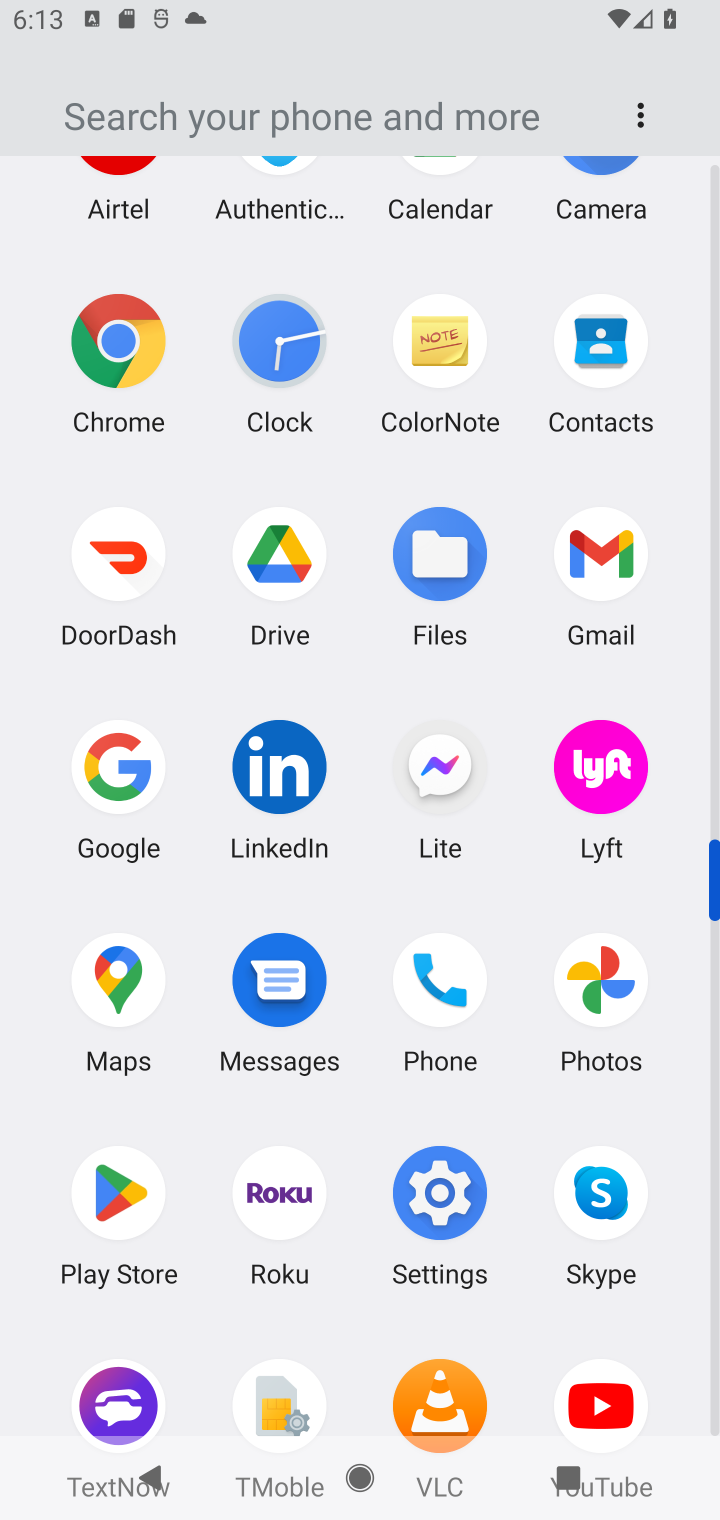
Step 32: drag from (713, 549) to (715, 886)
Your task to perform on an android device: open app "Google Play services" (install if not already installed) Image 33: 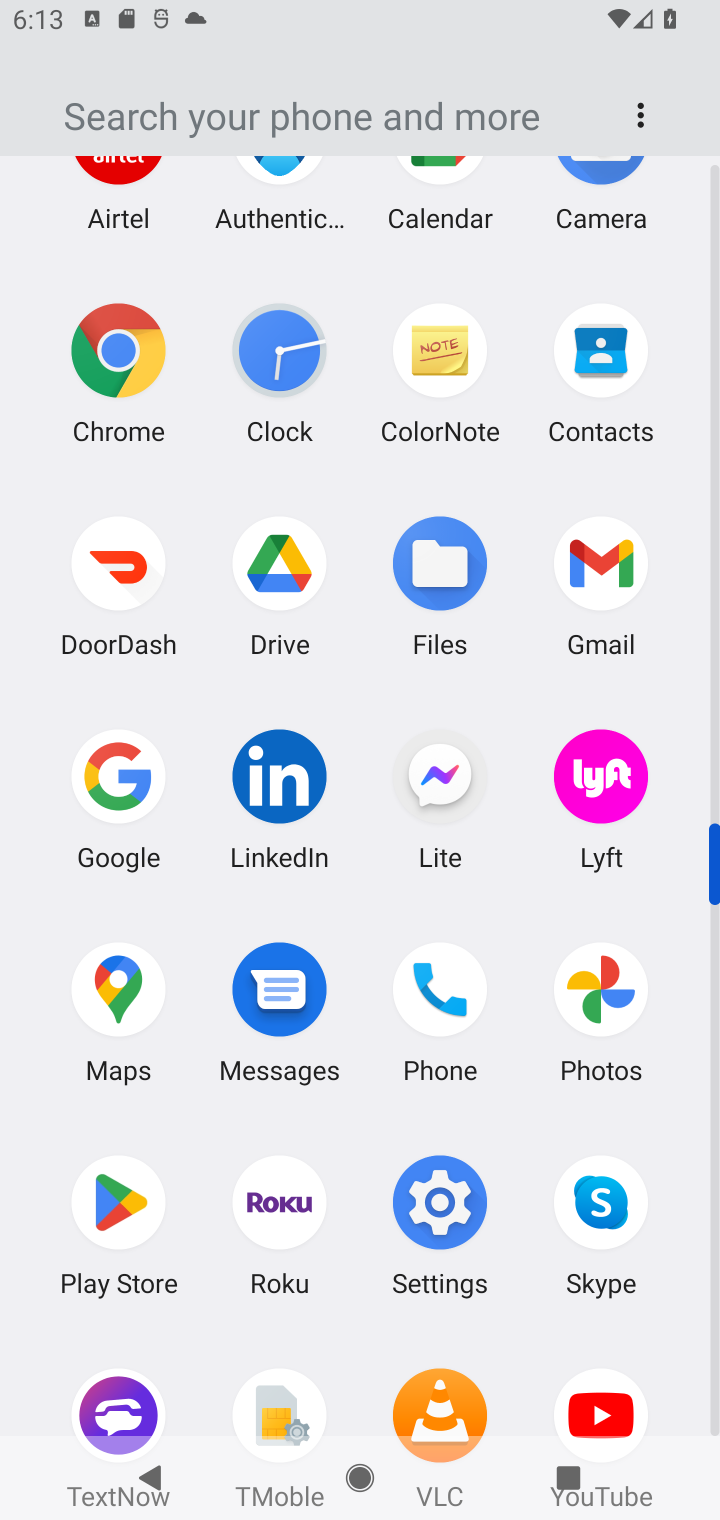
Step 33: click (710, 510)
Your task to perform on an android device: open app "Google Play services" (install if not already installed) Image 34: 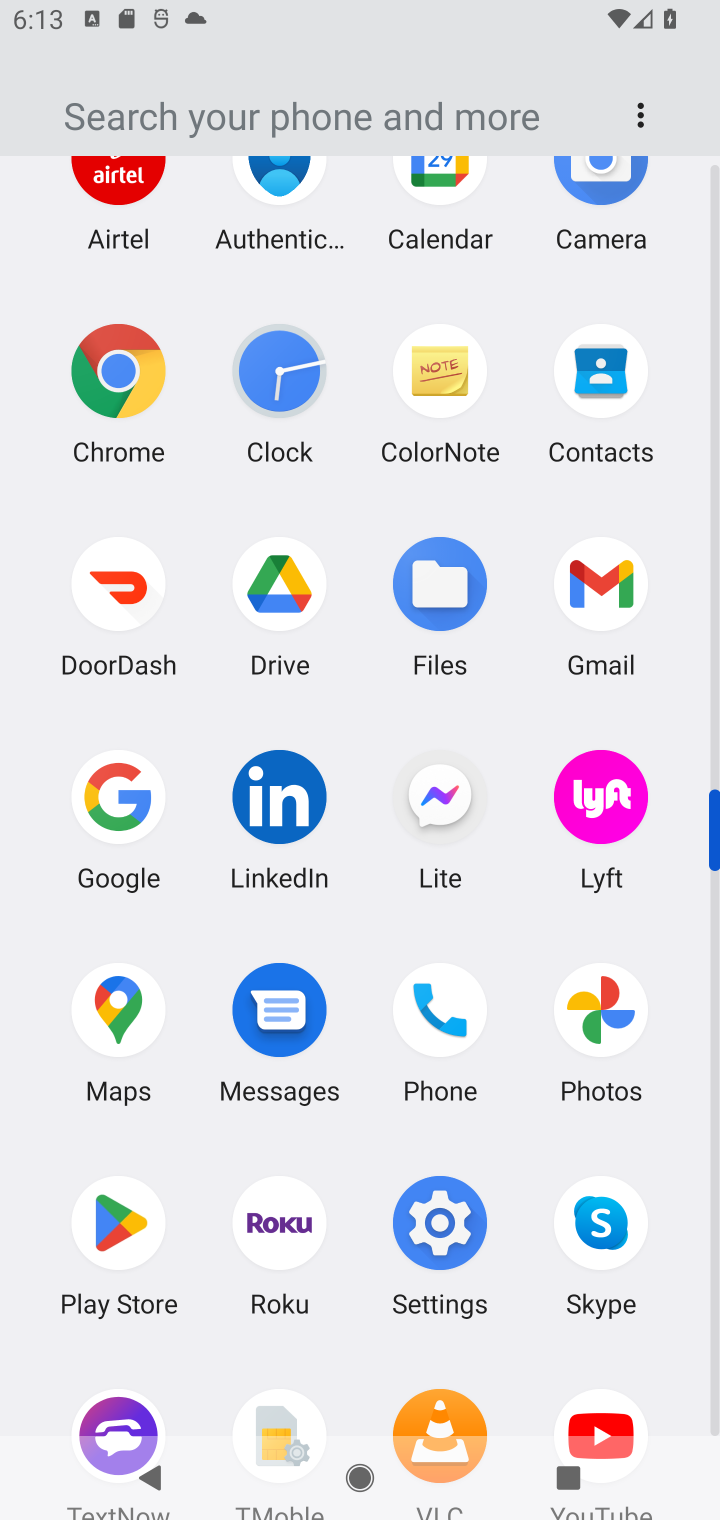
Step 34: drag from (716, 459) to (719, 756)
Your task to perform on an android device: open app "Google Play services" (install if not already installed) Image 35: 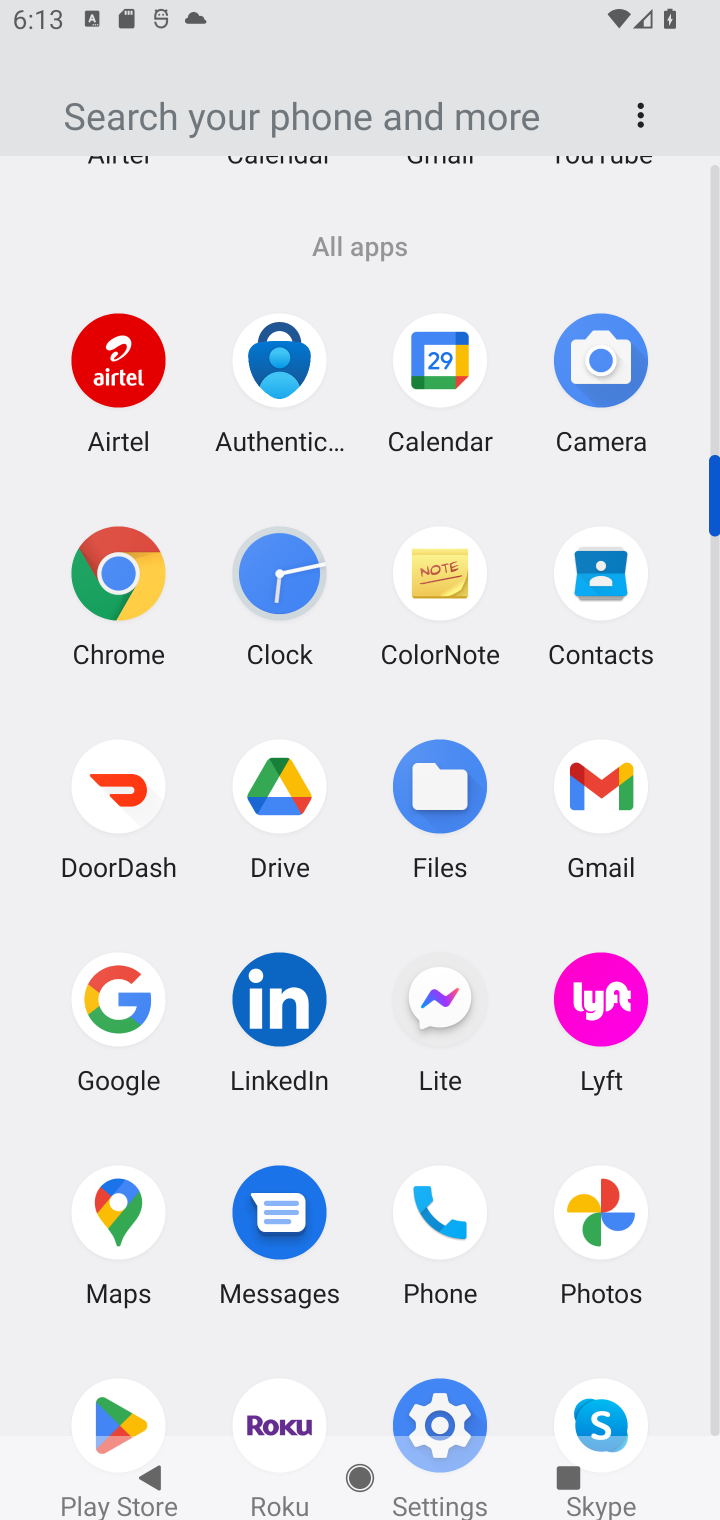
Step 35: click (709, 311)
Your task to perform on an android device: open app "Google Play services" (install if not already installed) Image 36: 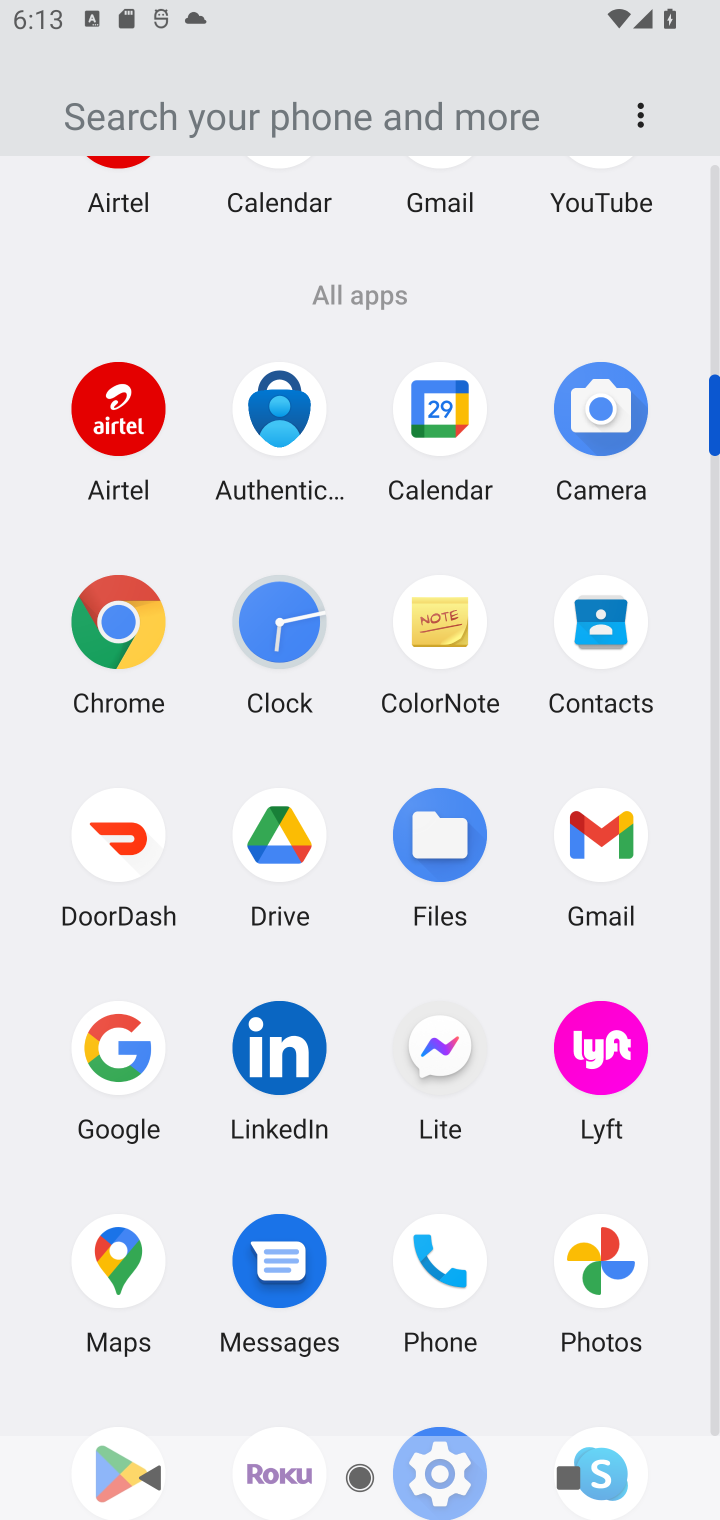
Step 36: task complete